Your task to perform on an android device: Search for the Best selling coffee table on Ikea Image 0: 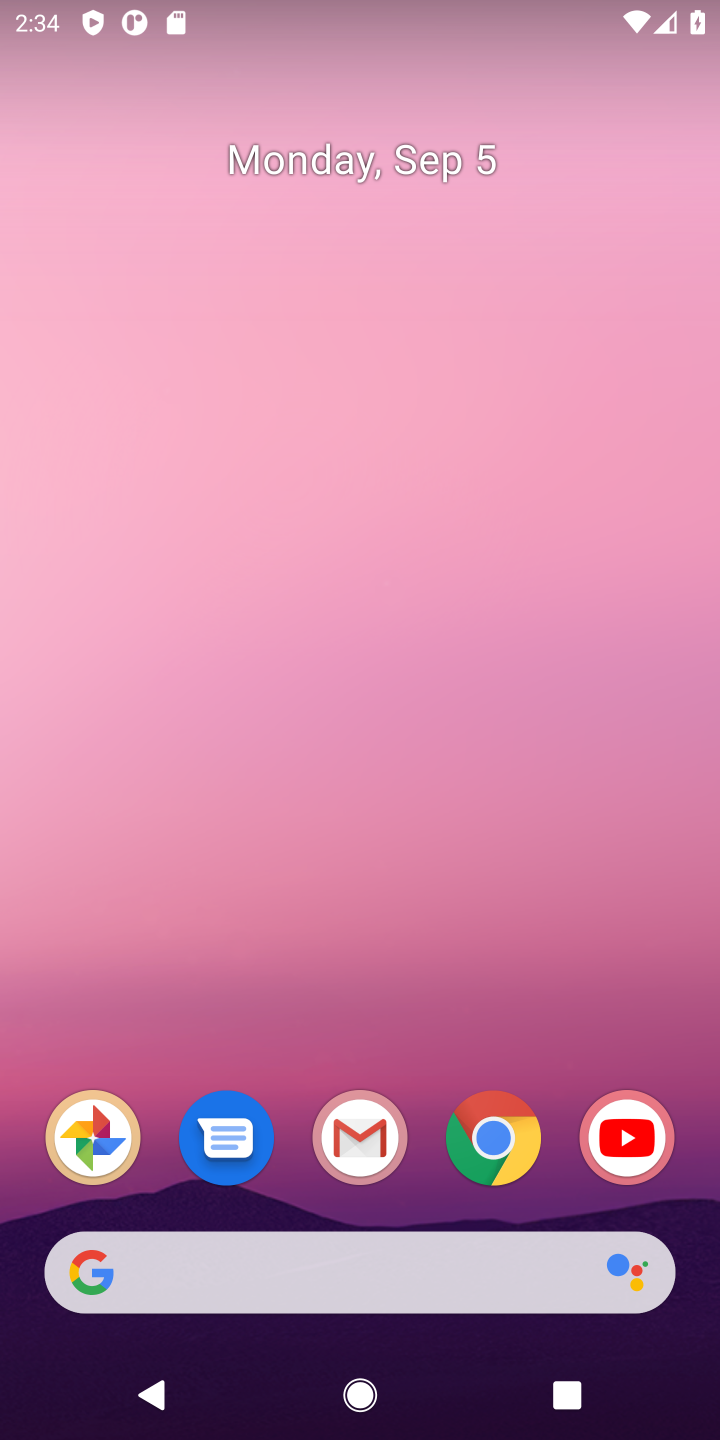
Step 0: click (498, 1135)
Your task to perform on an android device: Search for the Best selling coffee table on Ikea Image 1: 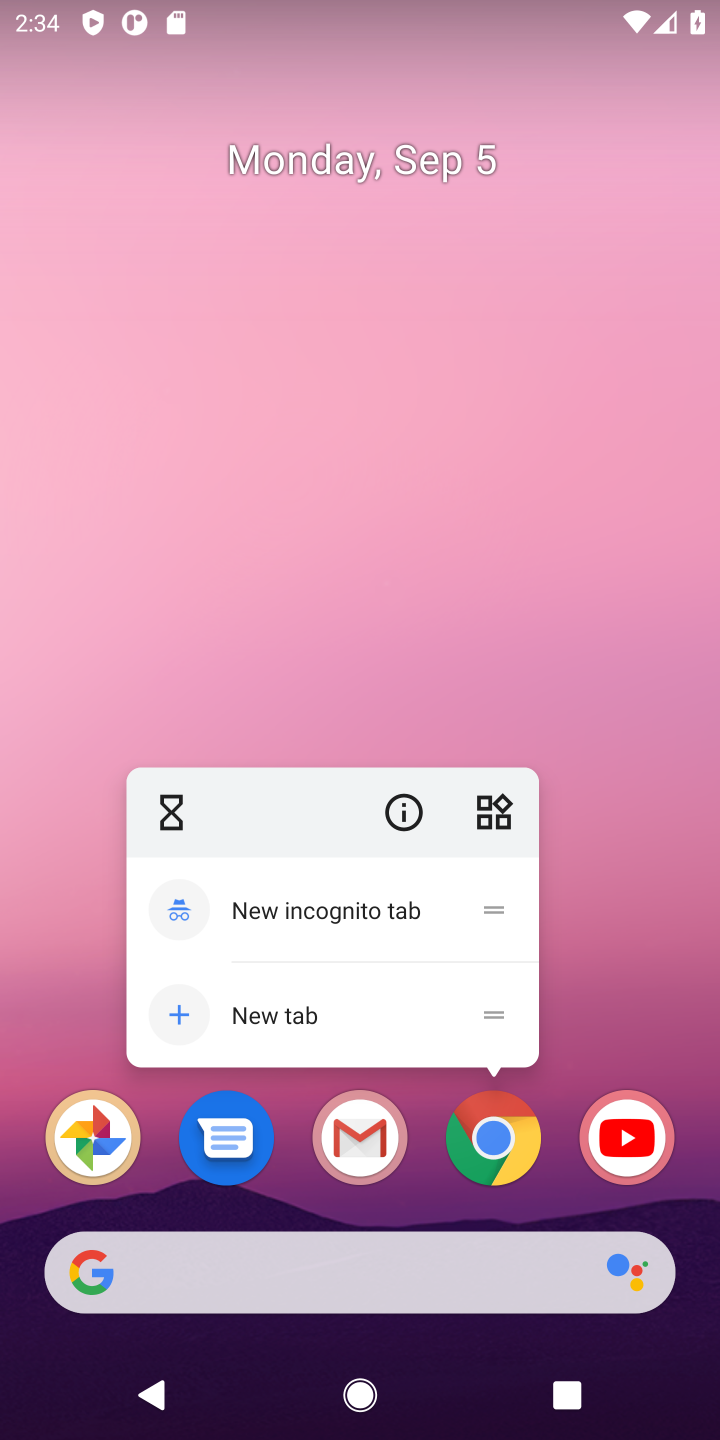
Step 1: click (480, 1145)
Your task to perform on an android device: Search for the Best selling coffee table on Ikea Image 2: 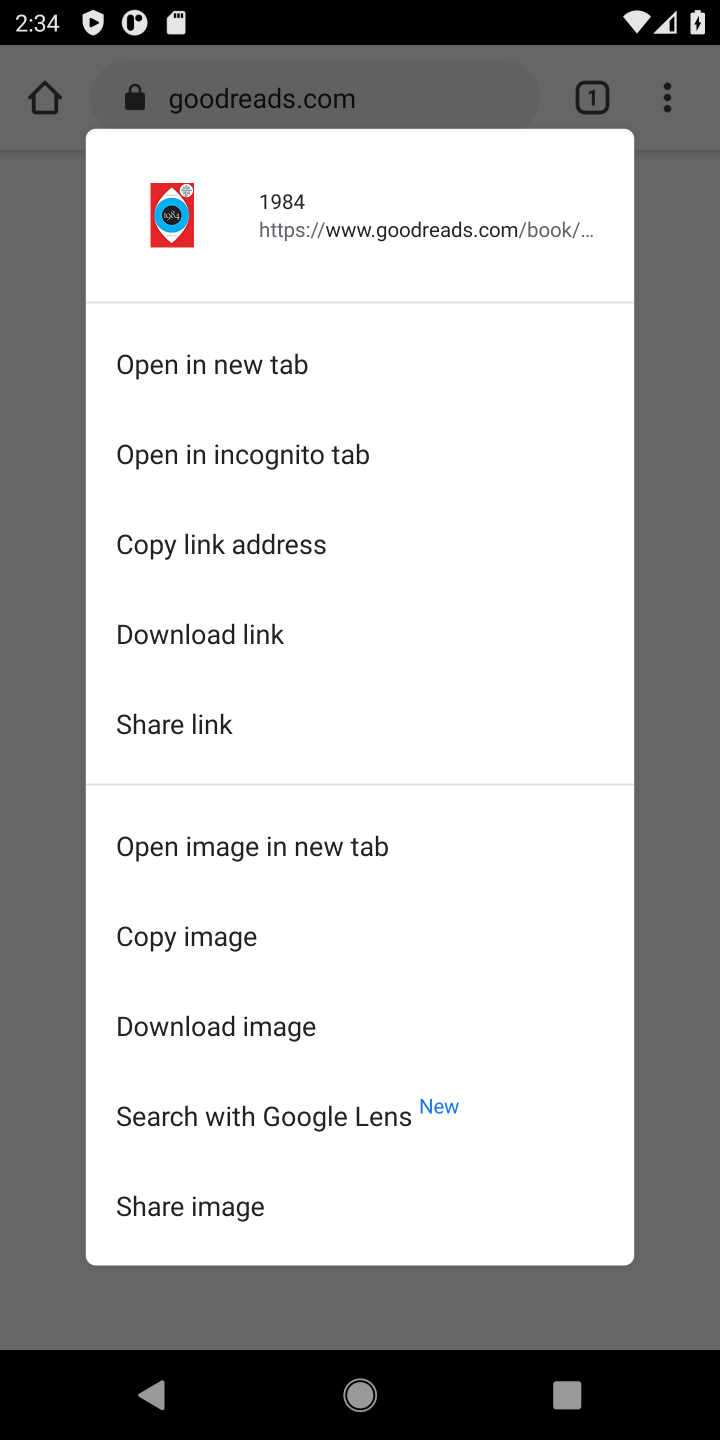
Step 2: click (658, 428)
Your task to perform on an android device: Search for the Best selling coffee table on Ikea Image 3: 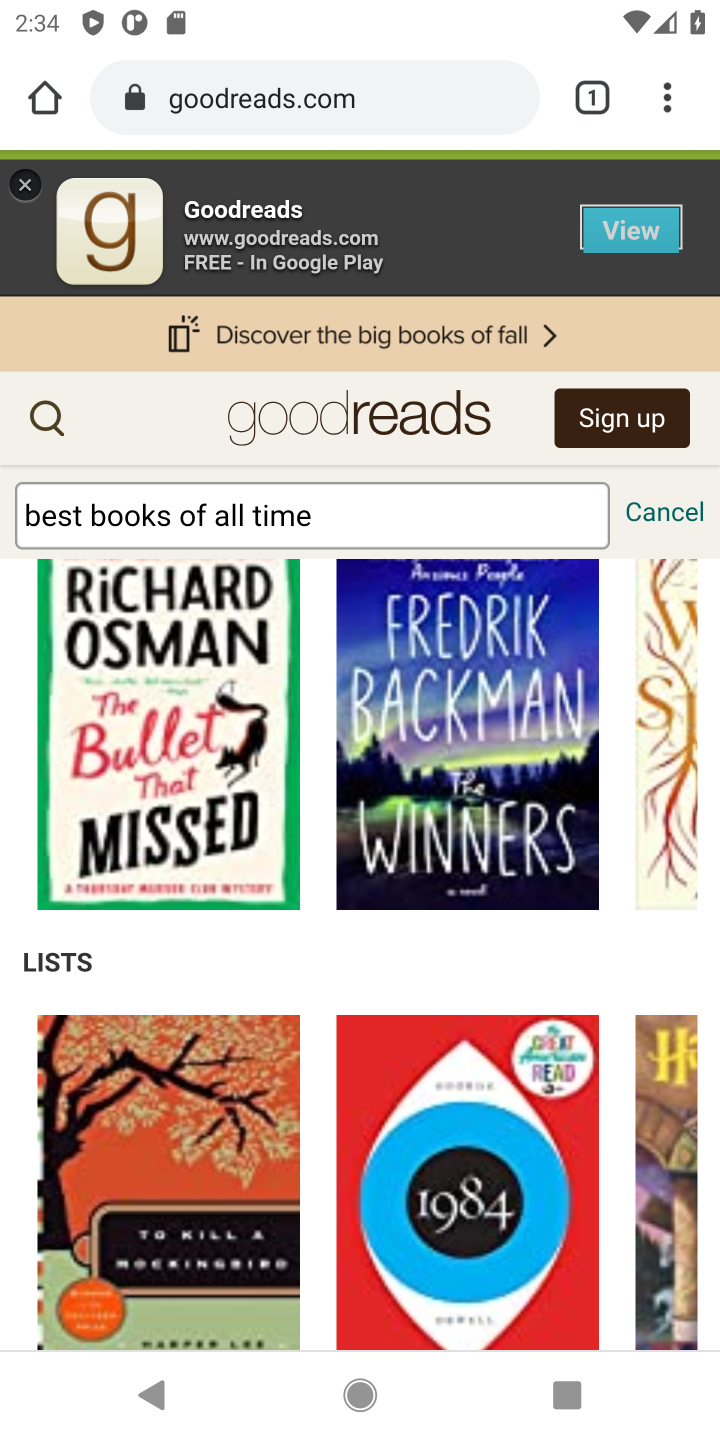
Step 3: click (294, 111)
Your task to perform on an android device: Search for the Best selling coffee table on Ikea Image 4: 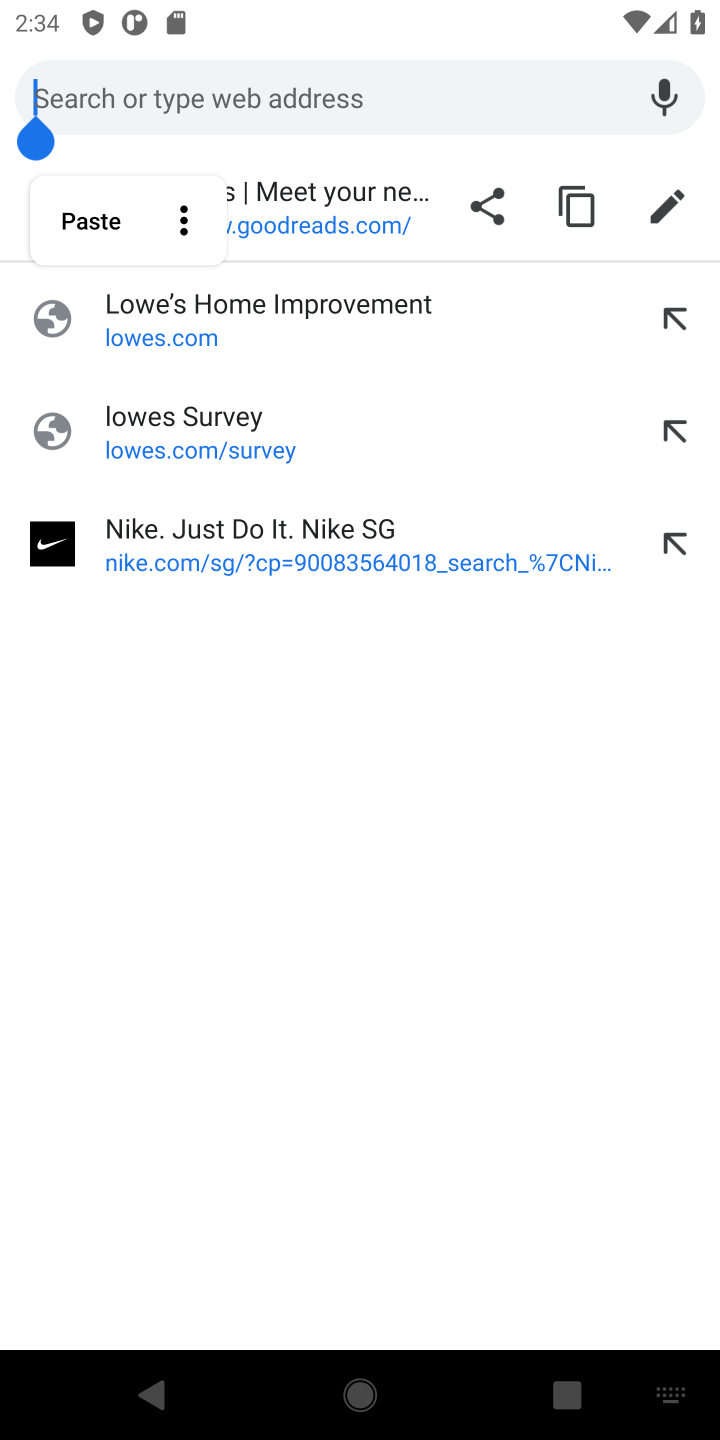
Step 4: type "ikea"
Your task to perform on an android device: Search for the Best selling coffee table on Ikea Image 5: 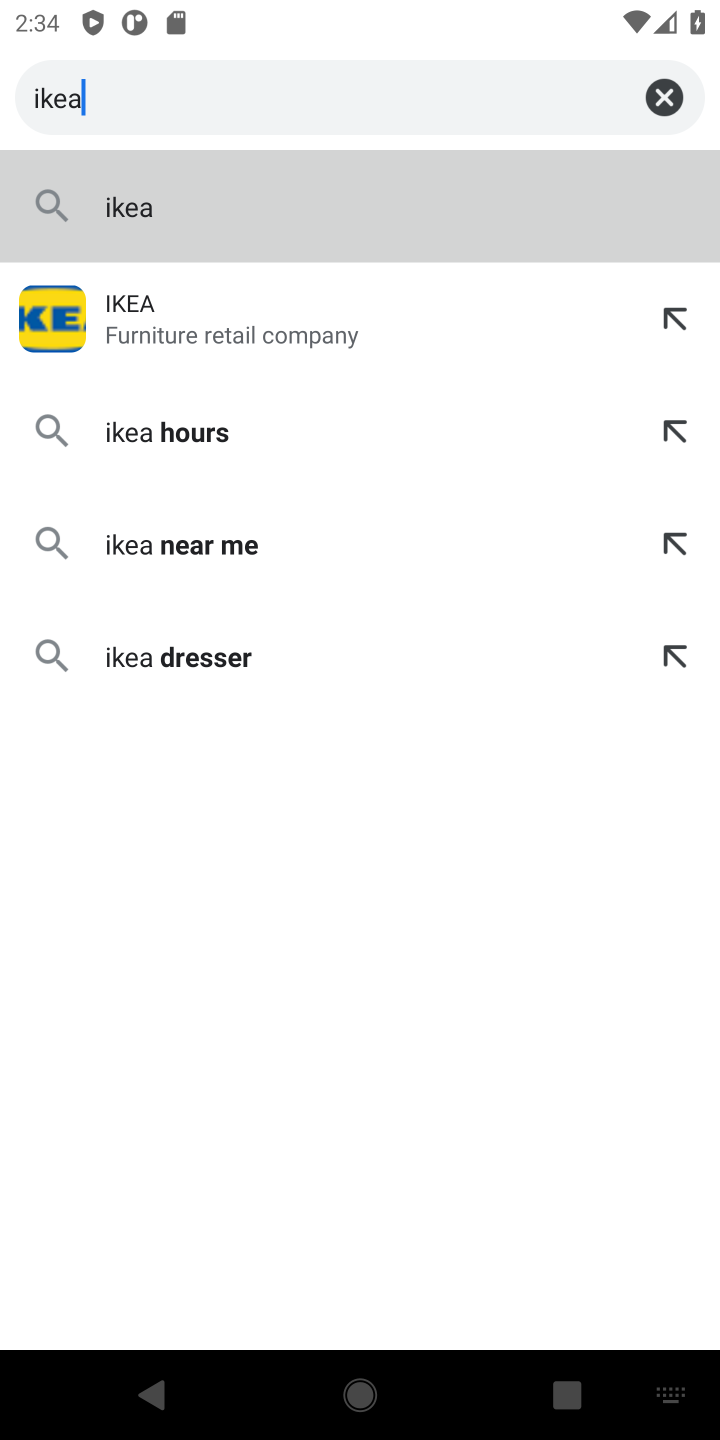
Step 5: click (227, 326)
Your task to perform on an android device: Search for the Best selling coffee table on Ikea Image 6: 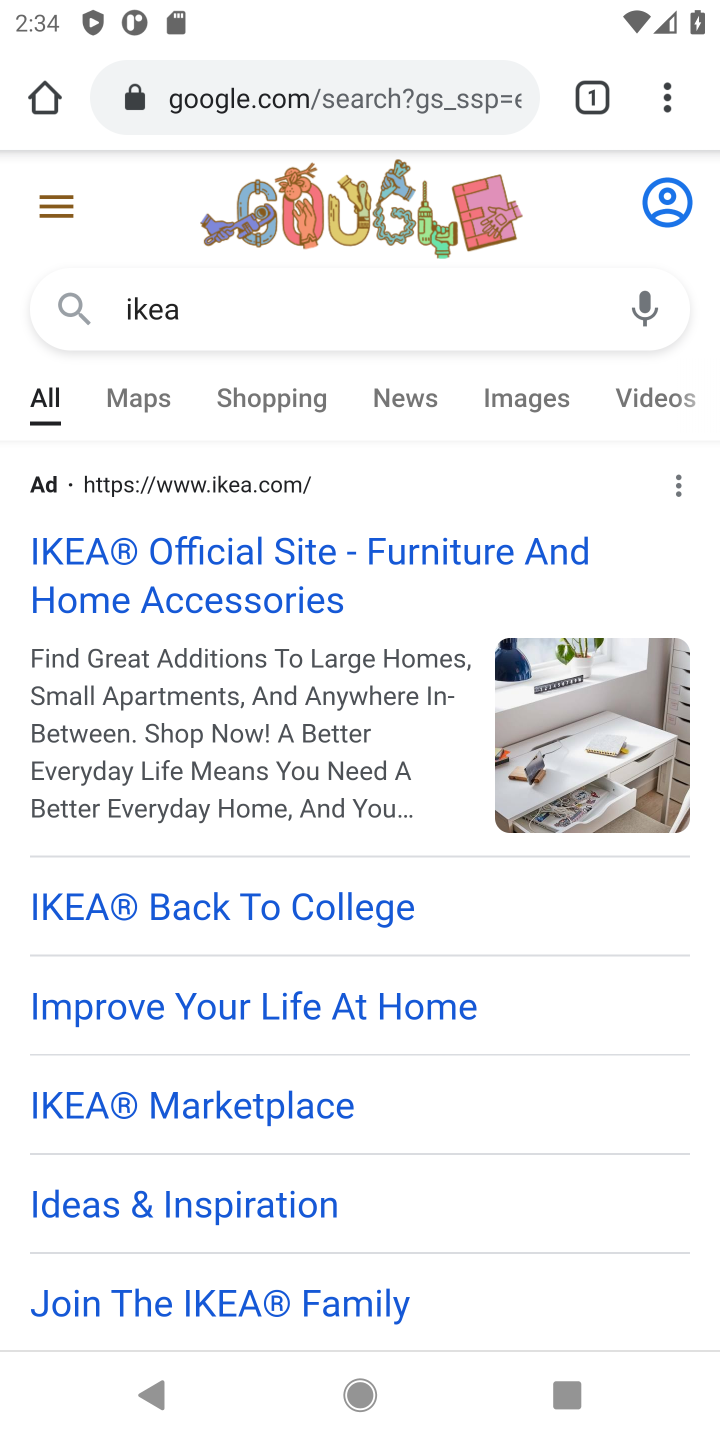
Step 6: drag from (623, 1123) to (557, 359)
Your task to perform on an android device: Search for the Best selling coffee table on Ikea Image 7: 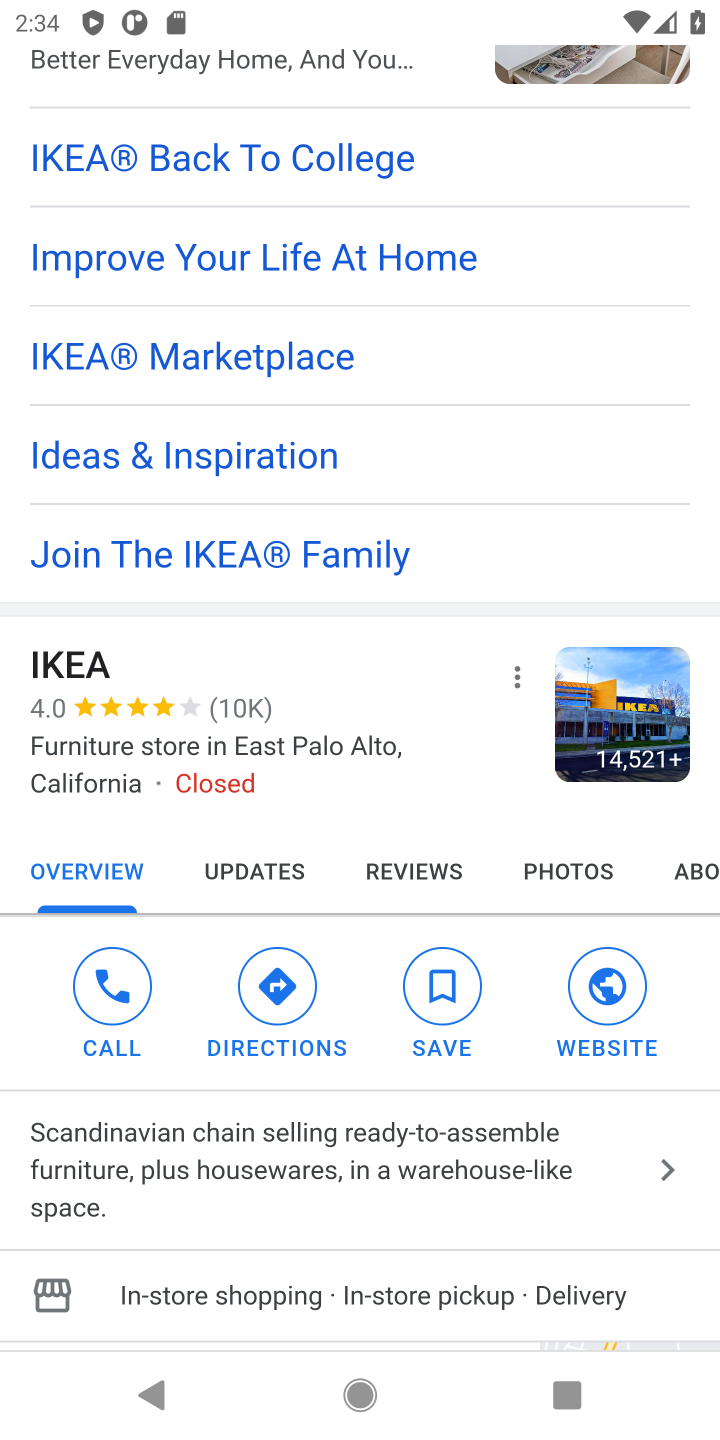
Step 7: drag from (672, 1004) to (644, 393)
Your task to perform on an android device: Search for the Best selling coffee table on Ikea Image 8: 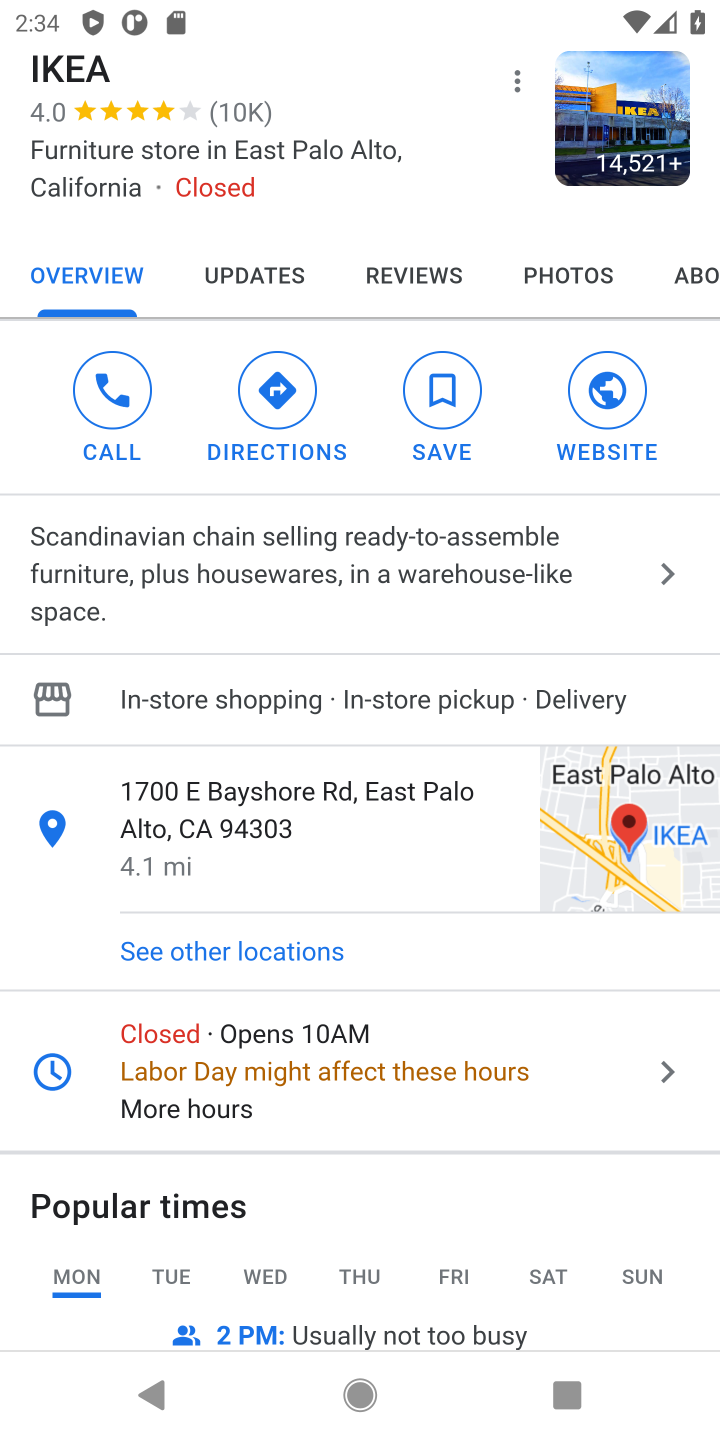
Step 8: drag from (236, 1017) to (171, 342)
Your task to perform on an android device: Search for the Best selling coffee table on Ikea Image 9: 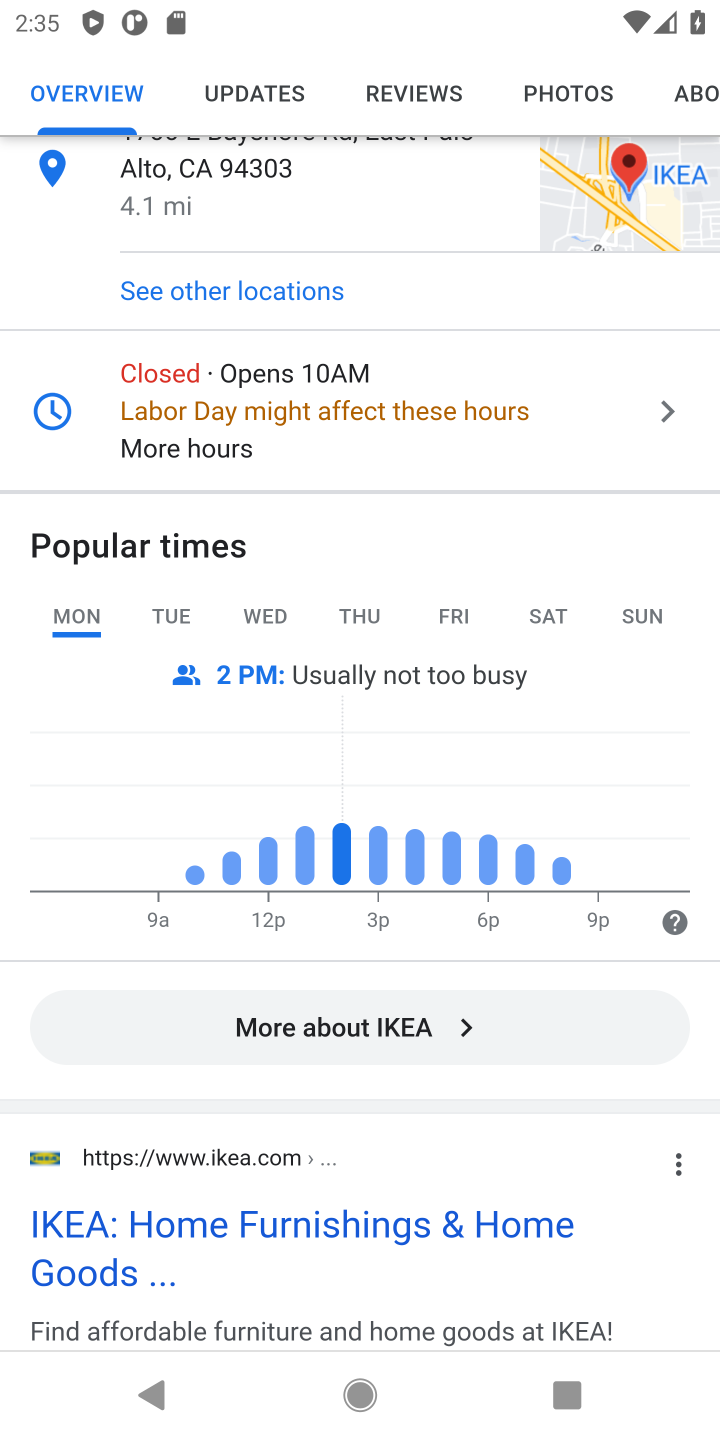
Step 9: click (183, 1226)
Your task to perform on an android device: Search for the Best selling coffee table on Ikea Image 10: 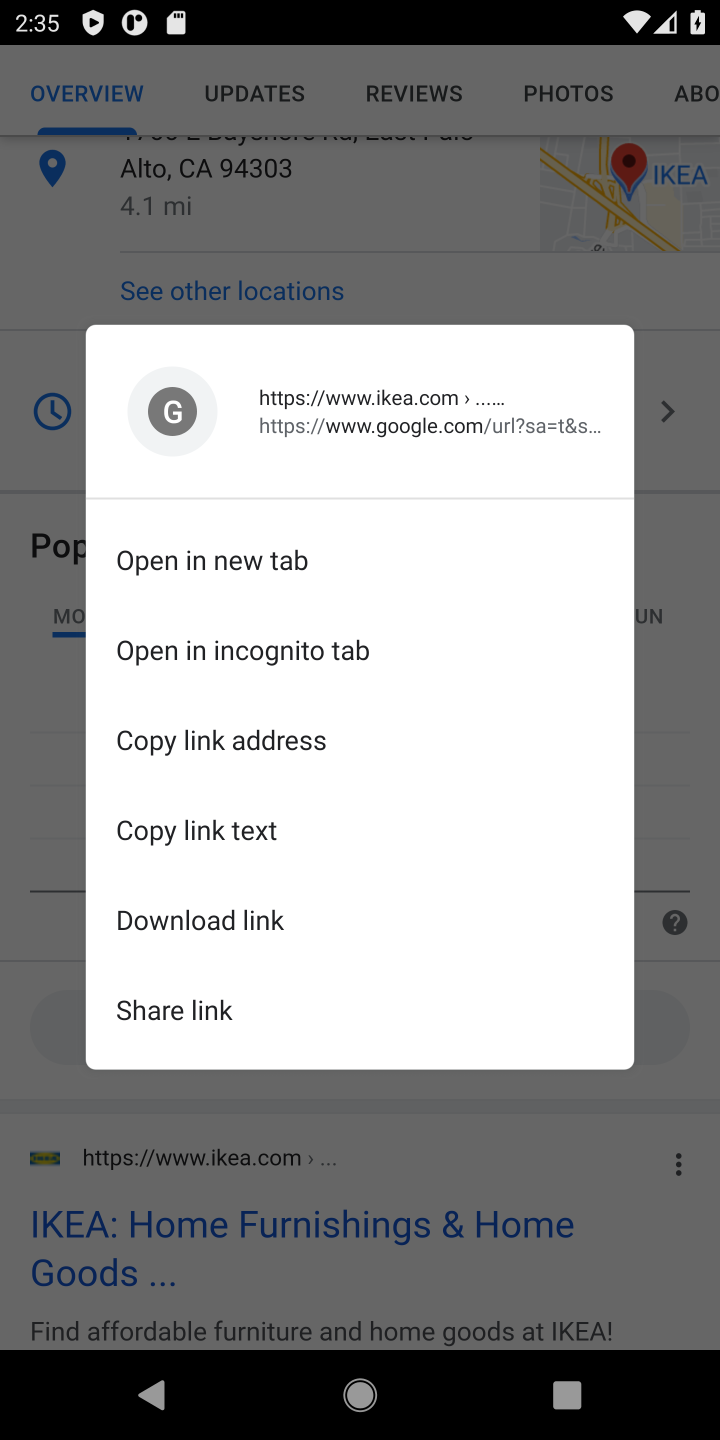
Step 10: click (687, 752)
Your task to perform on an android device: Search for the Best selling coffee table on Ikea Image 11: 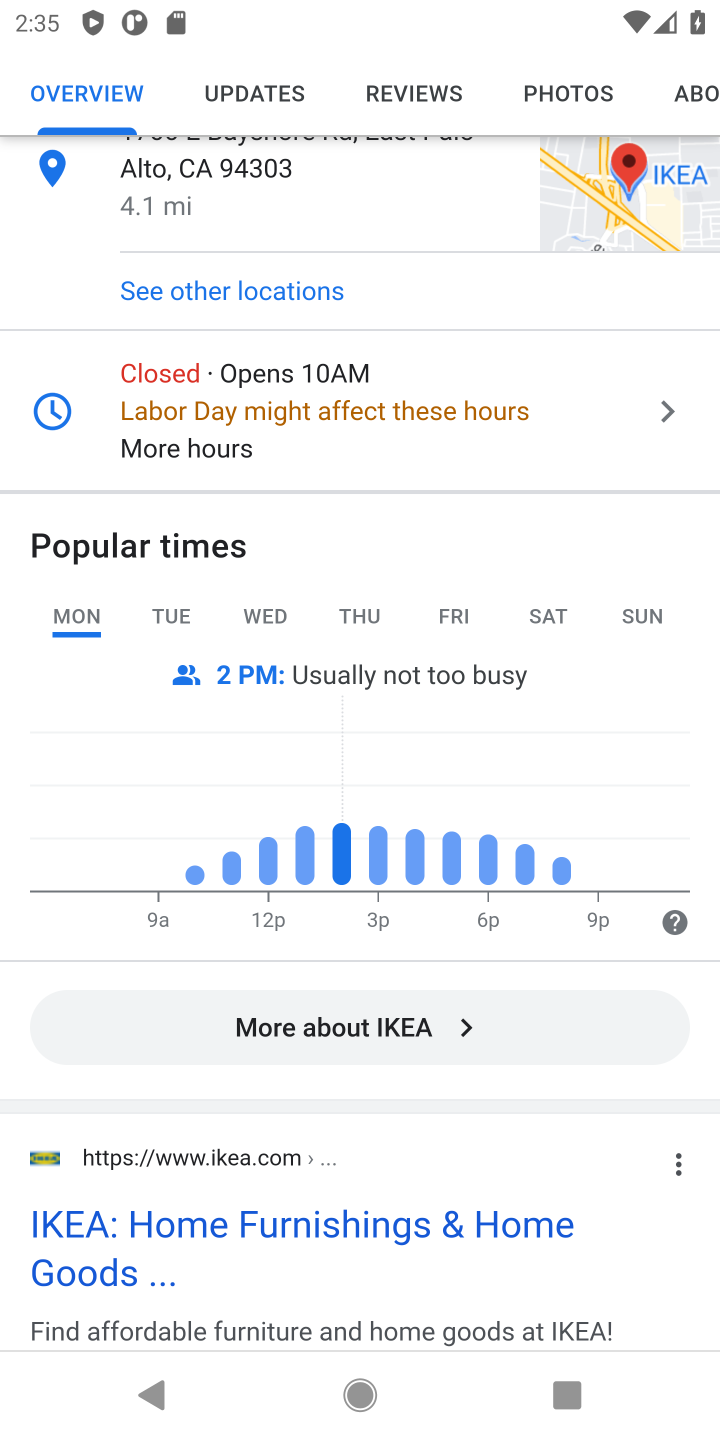
Step 11: click (185, 1227)
Your task to perform on an android device: Search for the Best selling coffee table on Ikea Image 12: 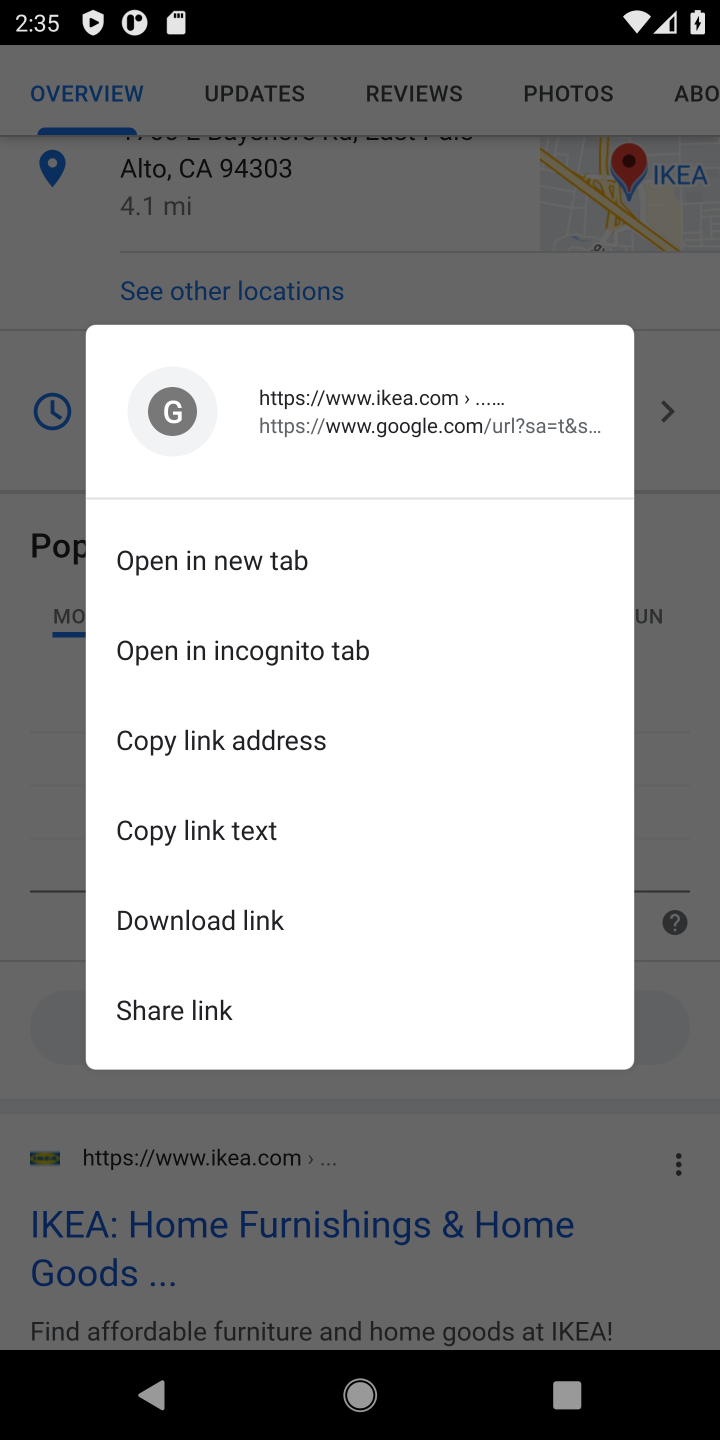
Step 12: click (682, 671)
Your task to perform on an android device: Search for the Best selling coffee table on Ikea Image 13: 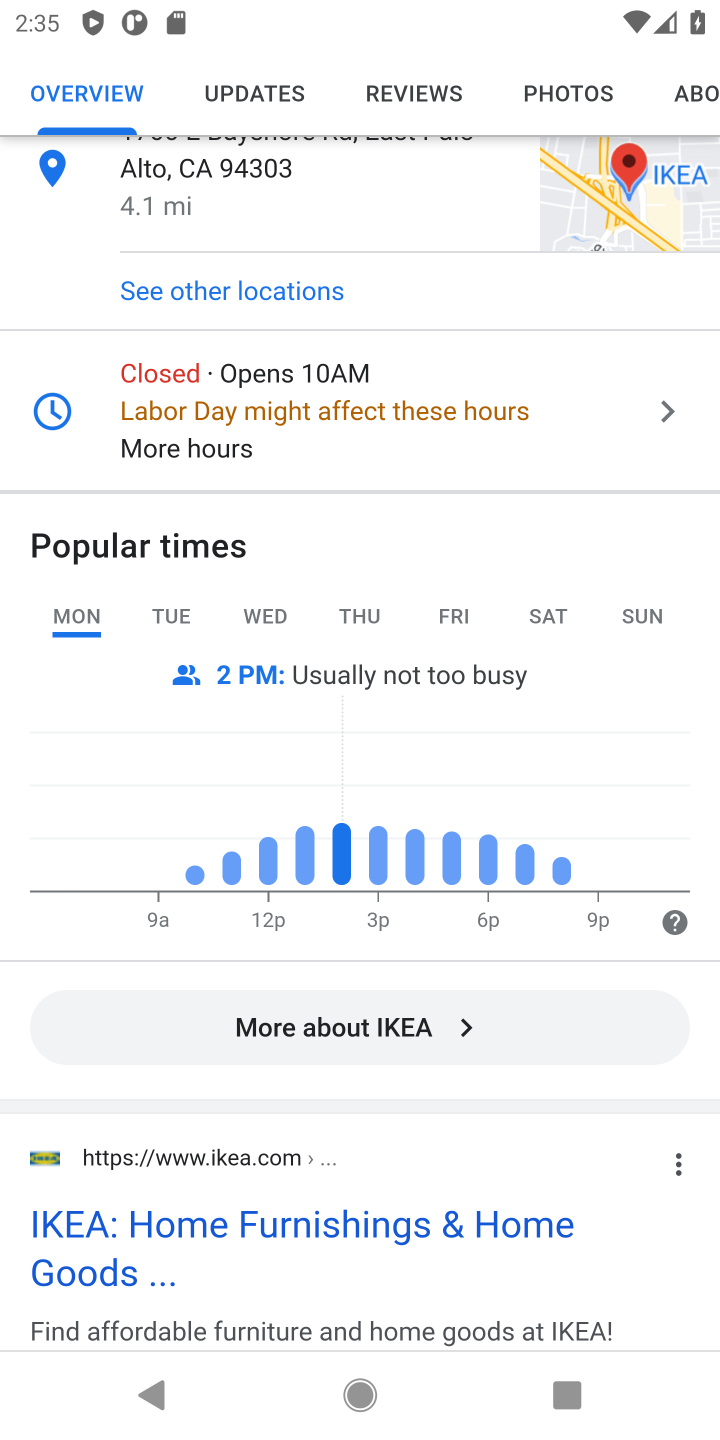
Step 13: click (206, 1220)
Your task to perform on an android device: Search for the Best selling coffee table on Ikea Image 14: 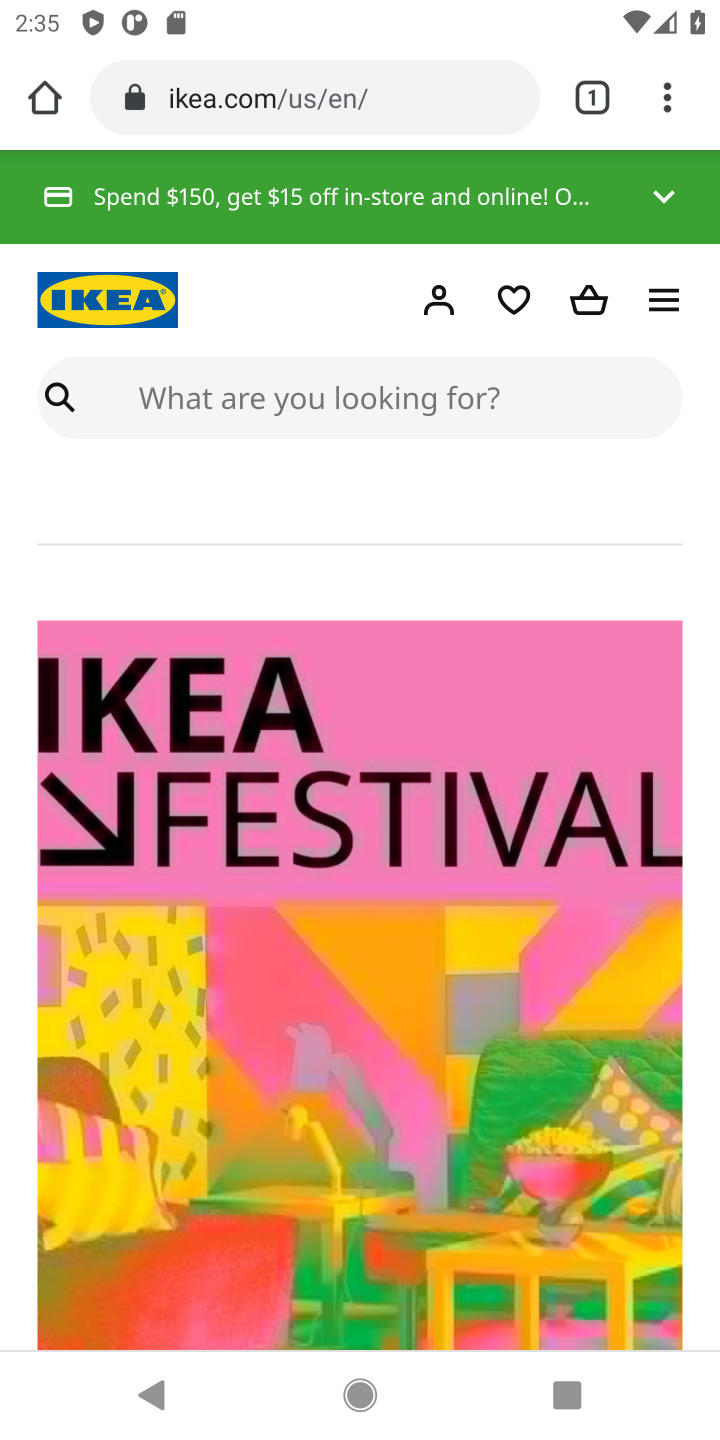
Step 14: click (278, 389)
Your task to perform on an android device: Search for the Best selling coffee table on Ikea Image 15: 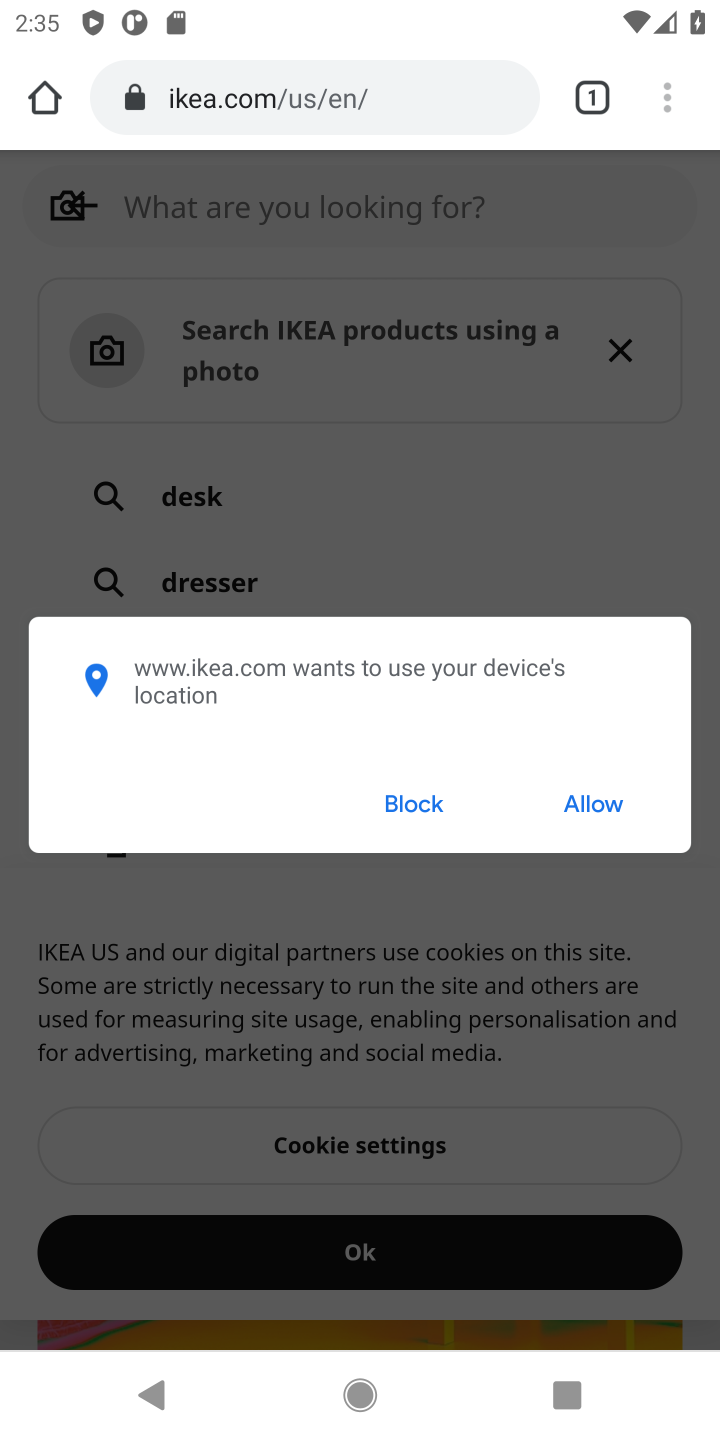
Step 15: type "coffee table"
Your task to perform on an android device: Search for the Best selling coffee table on Ikea Image 16: 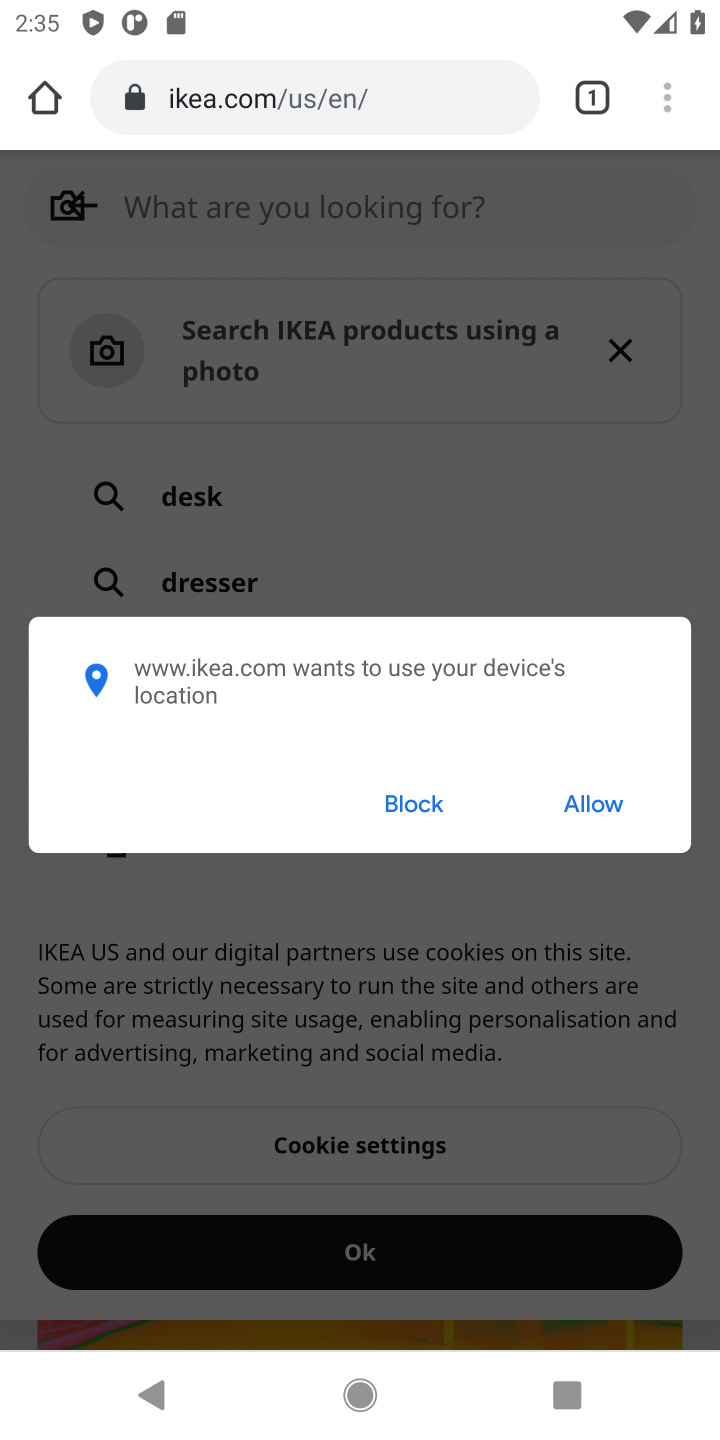
Step 16: type ""
Your task to perform on an android device: Search for the Best selling coffee table on Ikea Image 17: 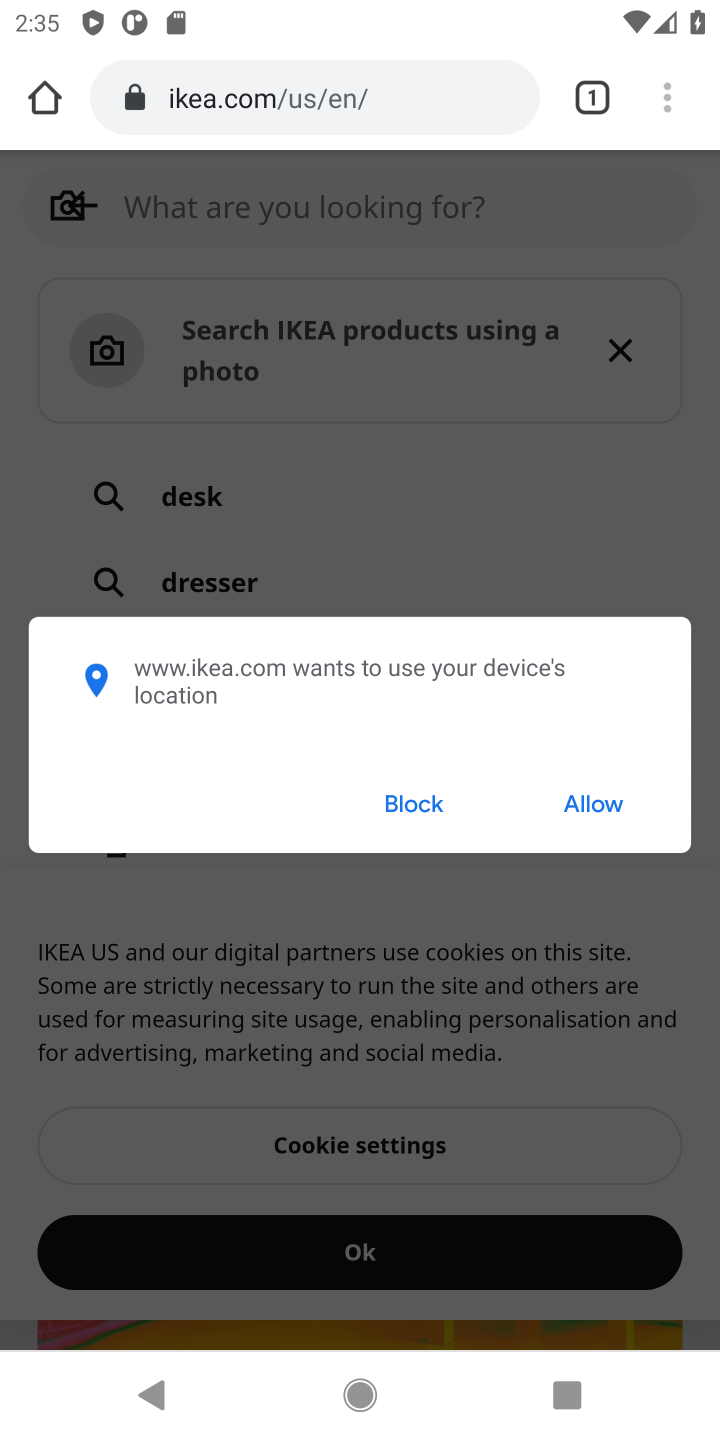
Step 17: click (591, 791)
Your task to perform on an android device: Search for the Best selling coffee table on Ikea Image 18: 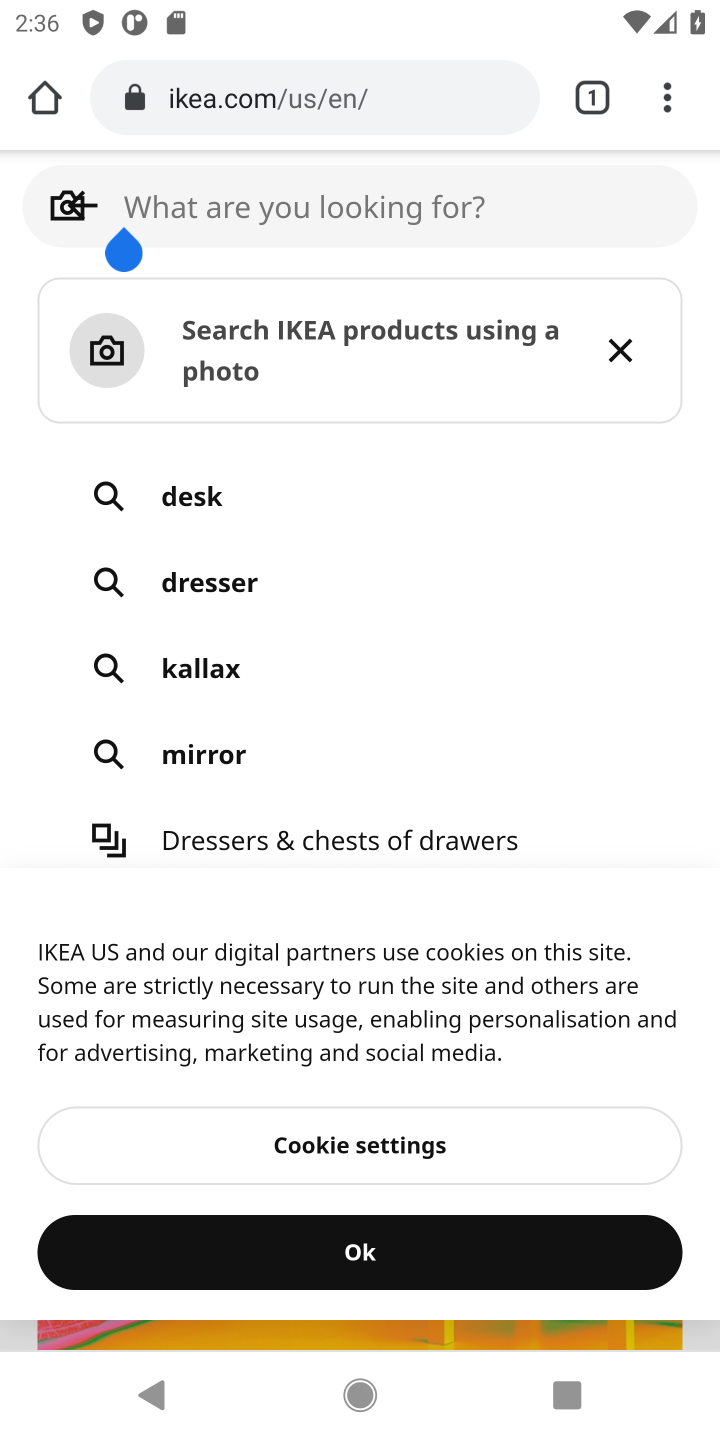
Step 18: click (258, 202)
Your task to perform on an android device: Search for the Best selling coffee table on Ikea Image 19: 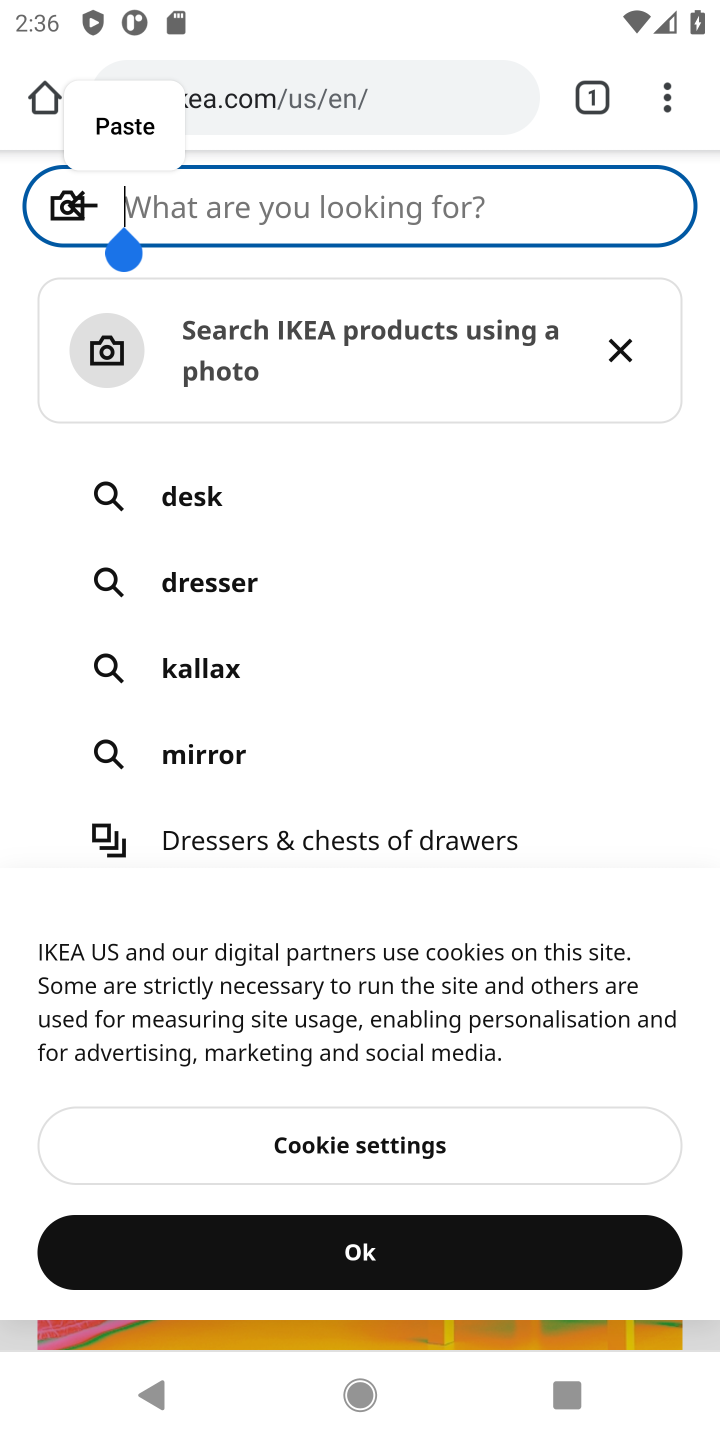
Step 19: click (615, 342)
Your task to perform on an android device: Search for the Best selling coffee table on Ikea Image 20: 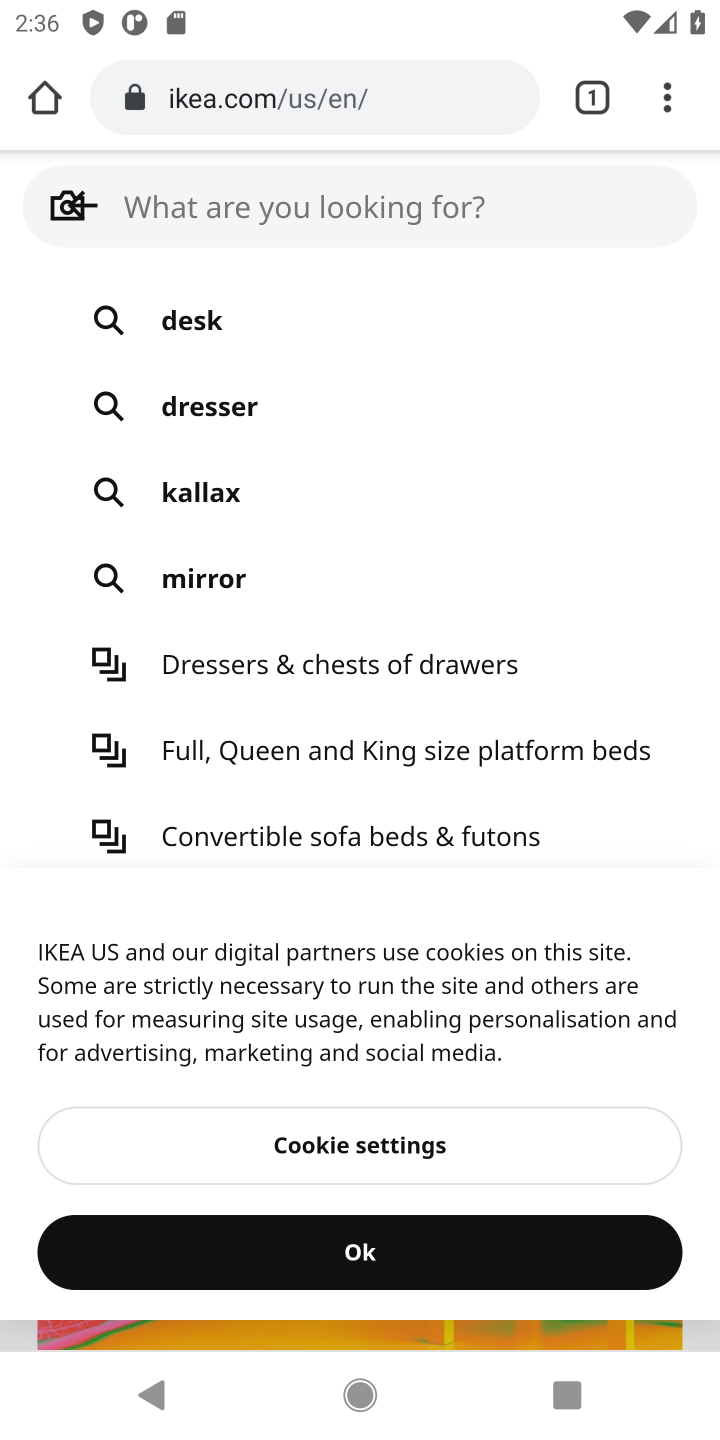
Step 20: click (242, 205)
Your task to perform on an android device: Search for the Best selling coffee table on Ikea Image 21: 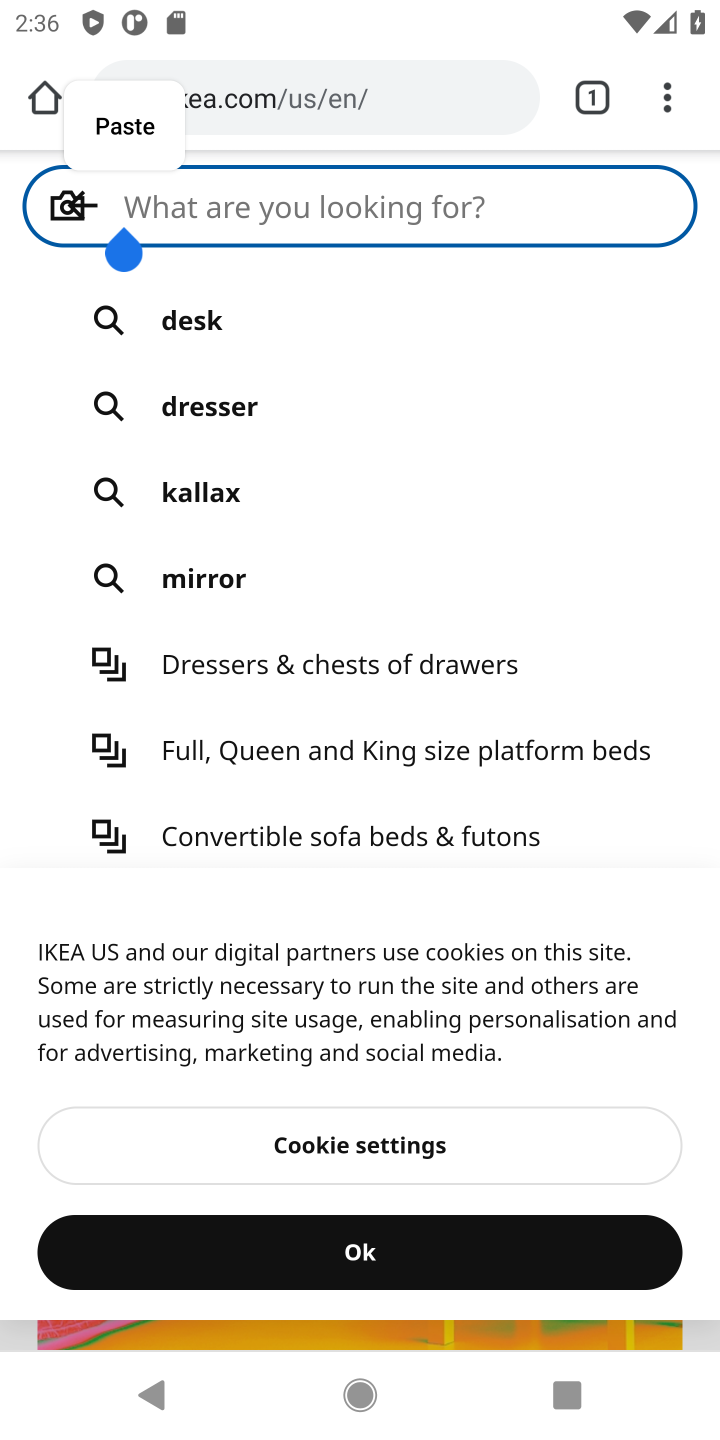
Step 21: type "coffee table"
Your task to perform on an android device: Search for the Best selling coffee table on Ikea Image 22: 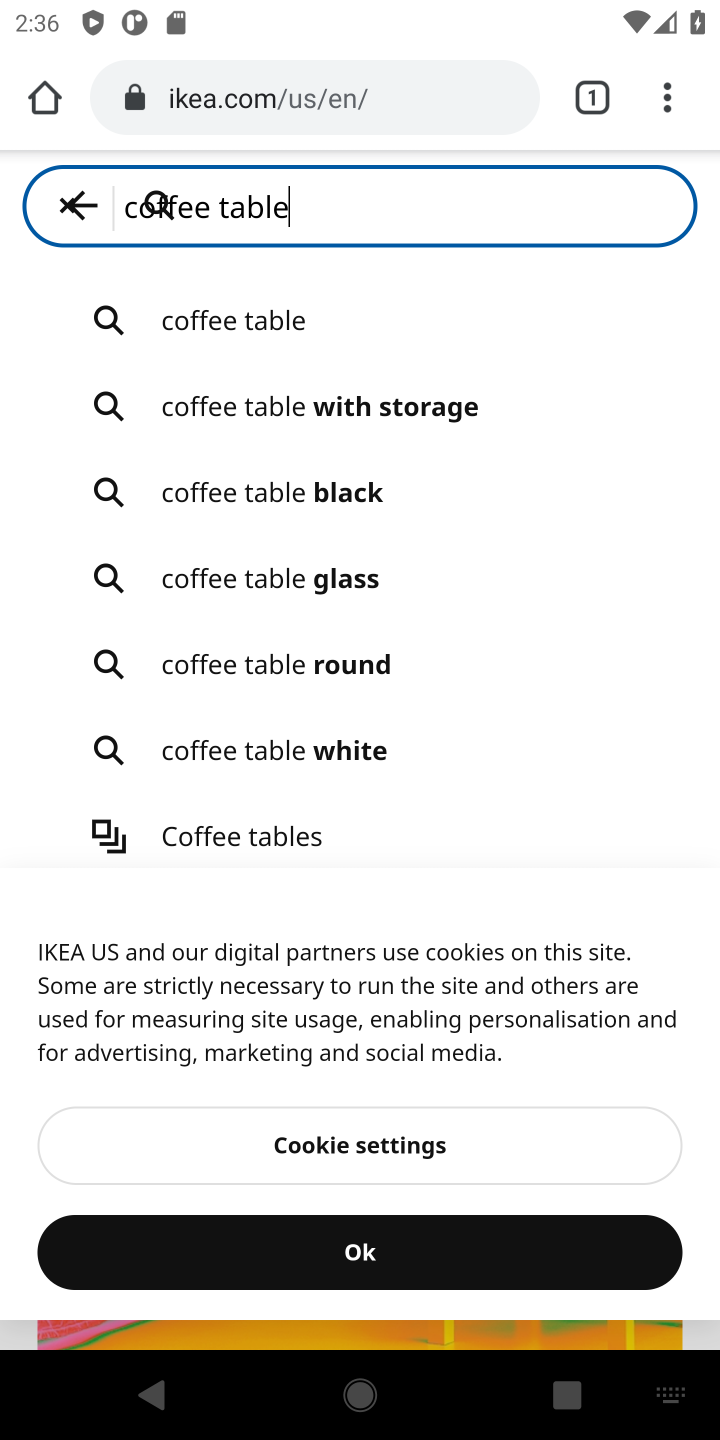
Step 22: click (240, 325)
Your task to perform on an android device: Search for the Best selling coffee table on Ikea Image 23: 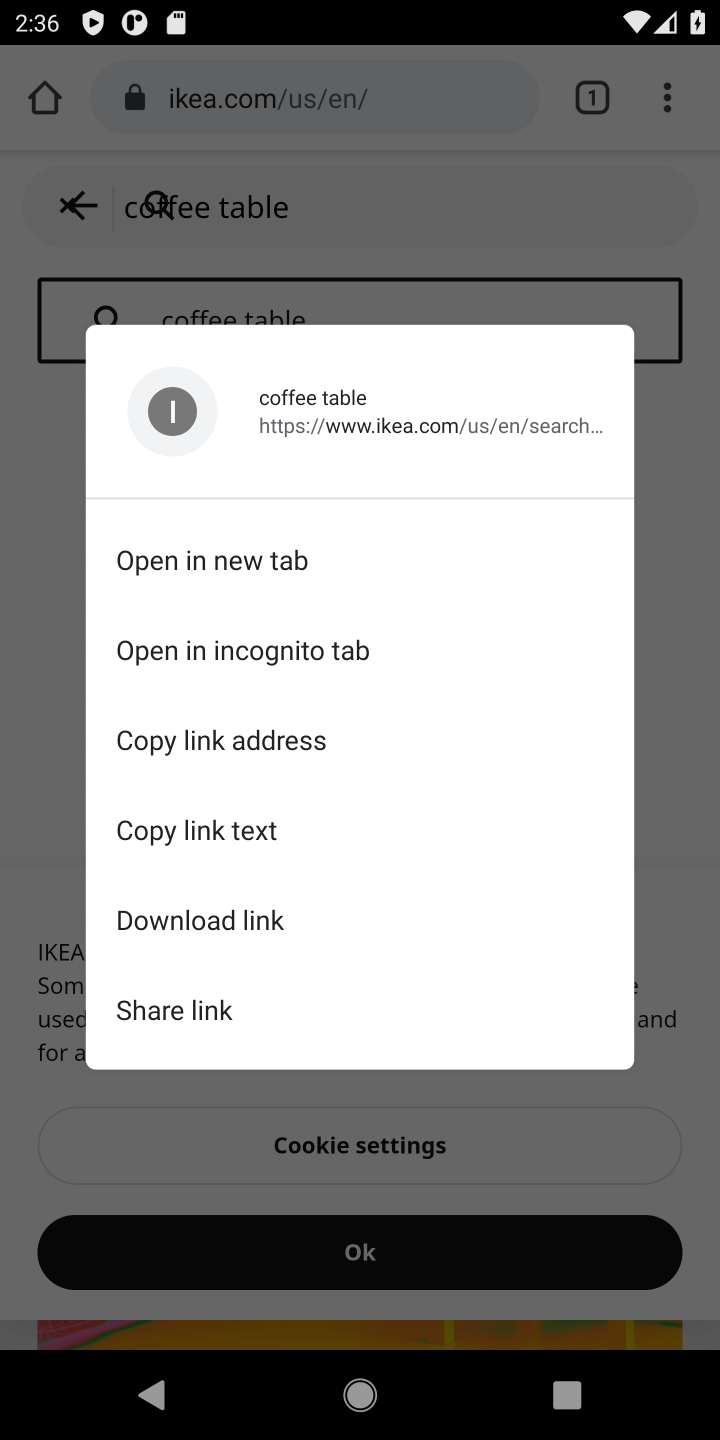
Step 23: click (715, 610)
Your task to perform on an android device: Search for the Best selling coffee table on Ikea Image 24: 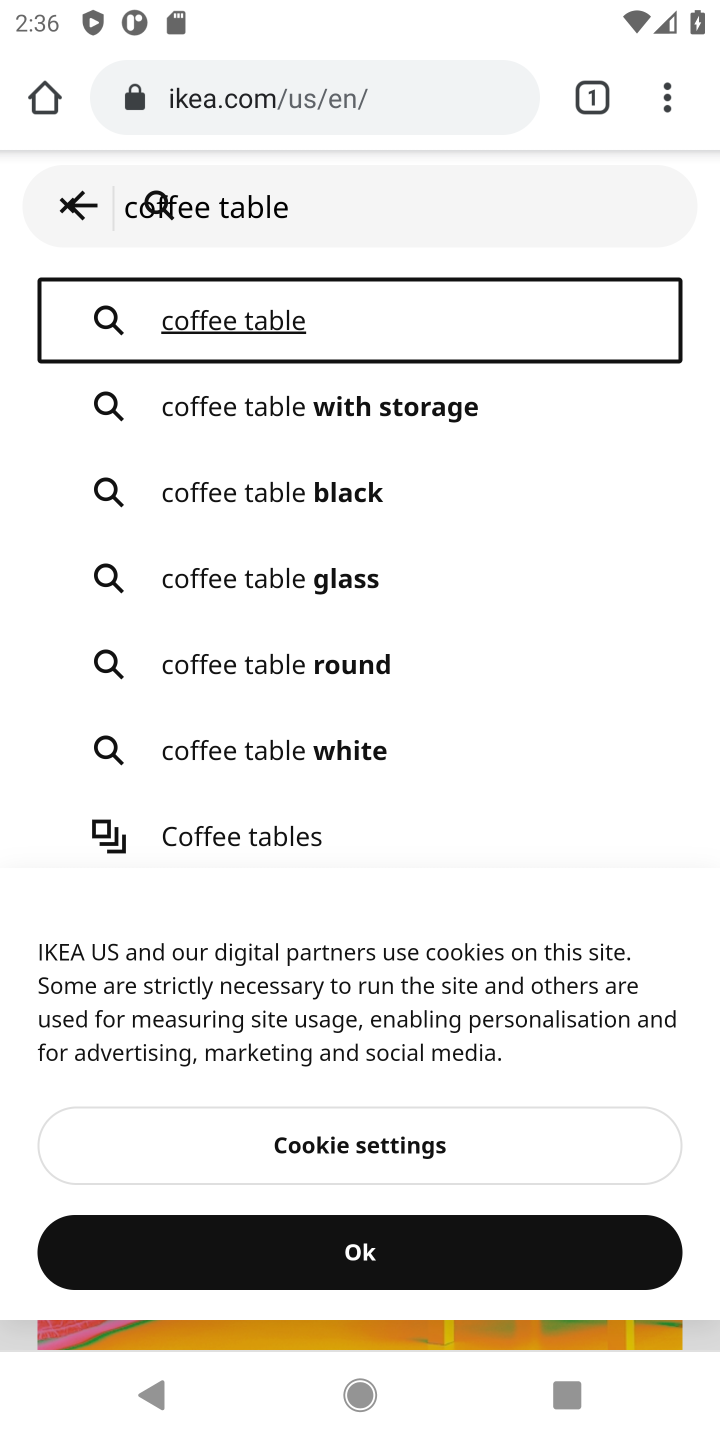
Step 24: click (151, 400)
Your task to perform on an android device: Search for the Best selling coffee table on Ikea Image 25: 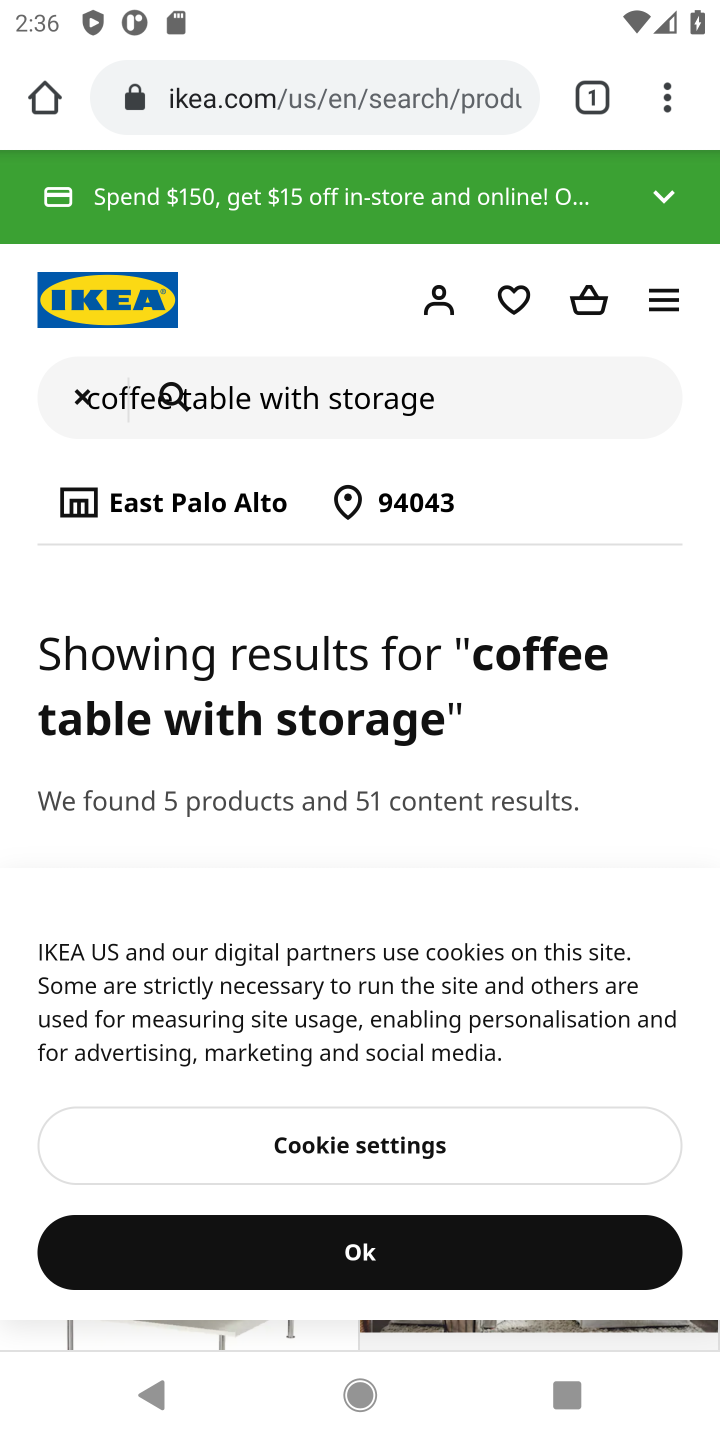
Step 25: drag from (248, 1074) to (575, 514)
Your task to perform on an android device: Search for the Best selling coffee table on Ikea Image 26: 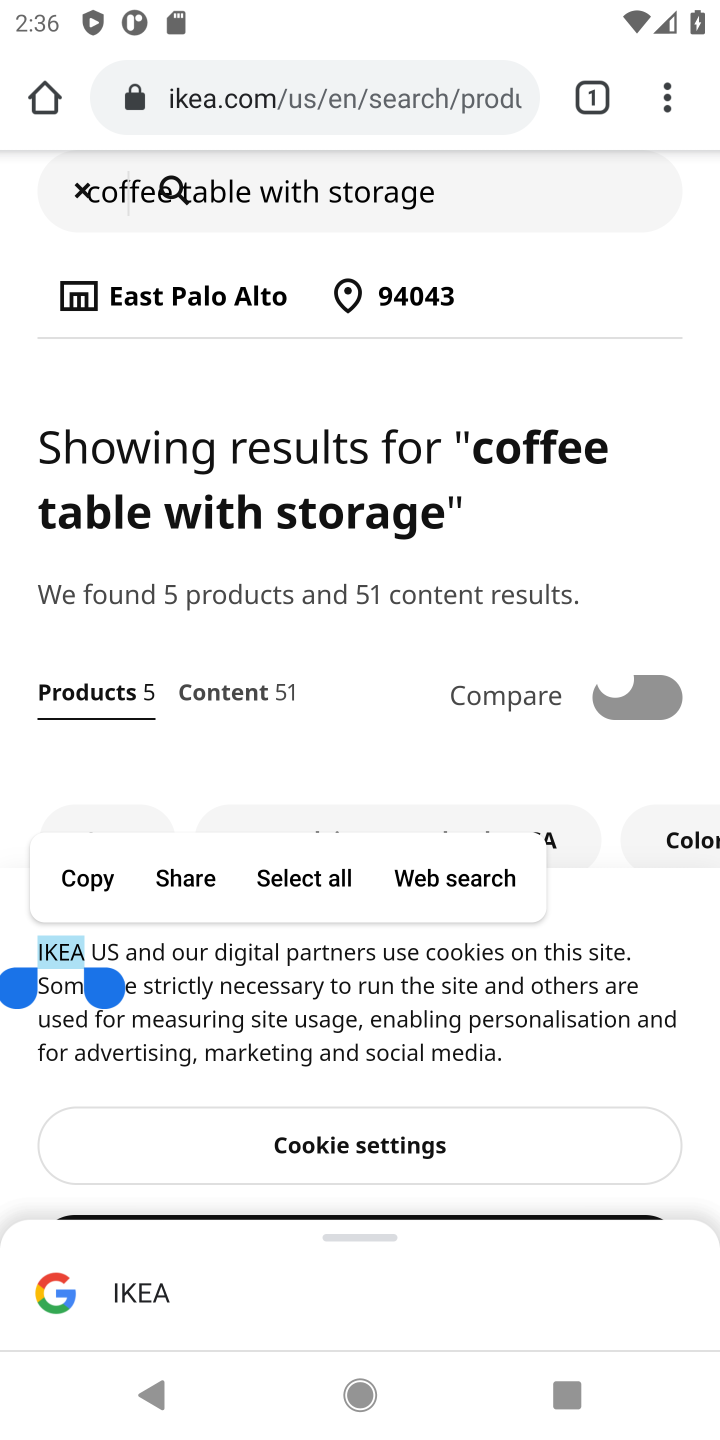
Step 26: drag from (634, 761) to (594, 501)
Your task to perform on an android device: Search for the Best selling coffee table on Ikea Image 27: 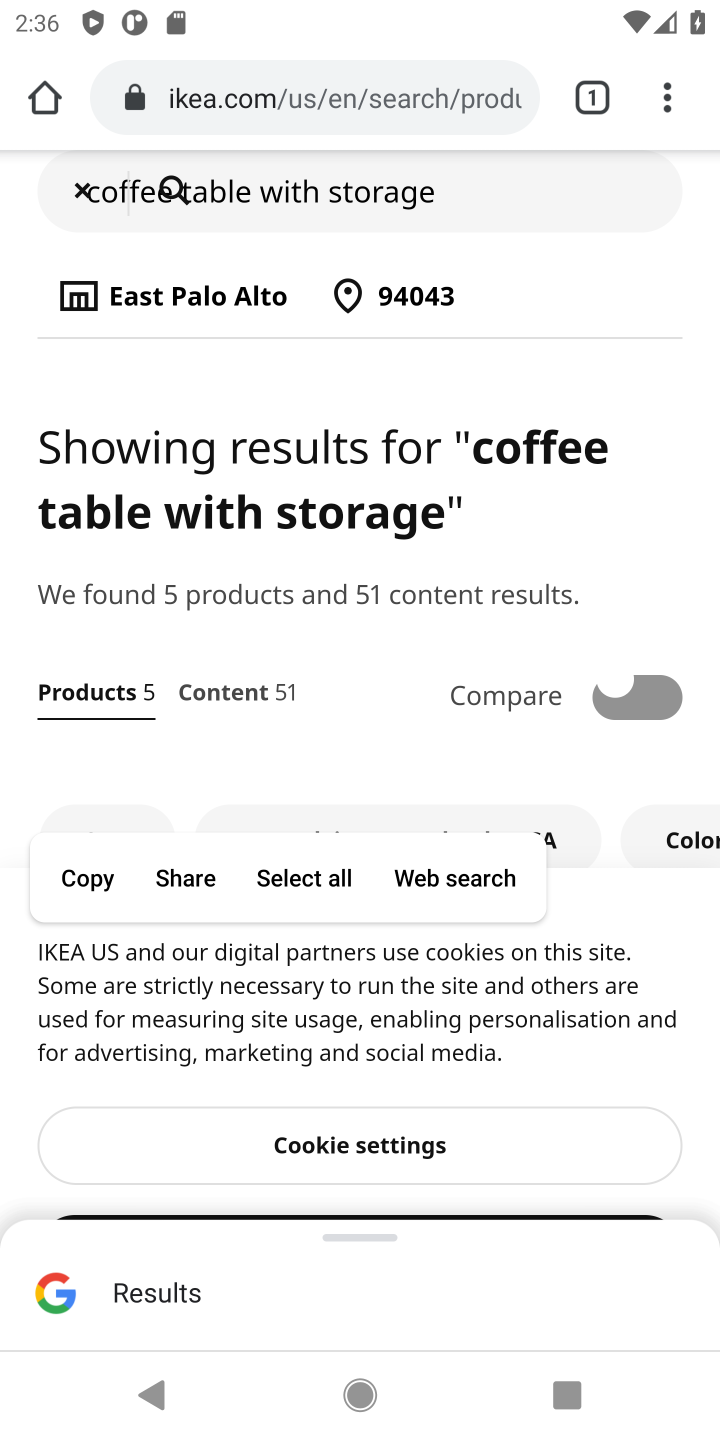
Step 27: drag from (639, 1000) to (524, 339)
Your task to perform on an android device: Search for the Best selling coffee table on Ikea Image 28: 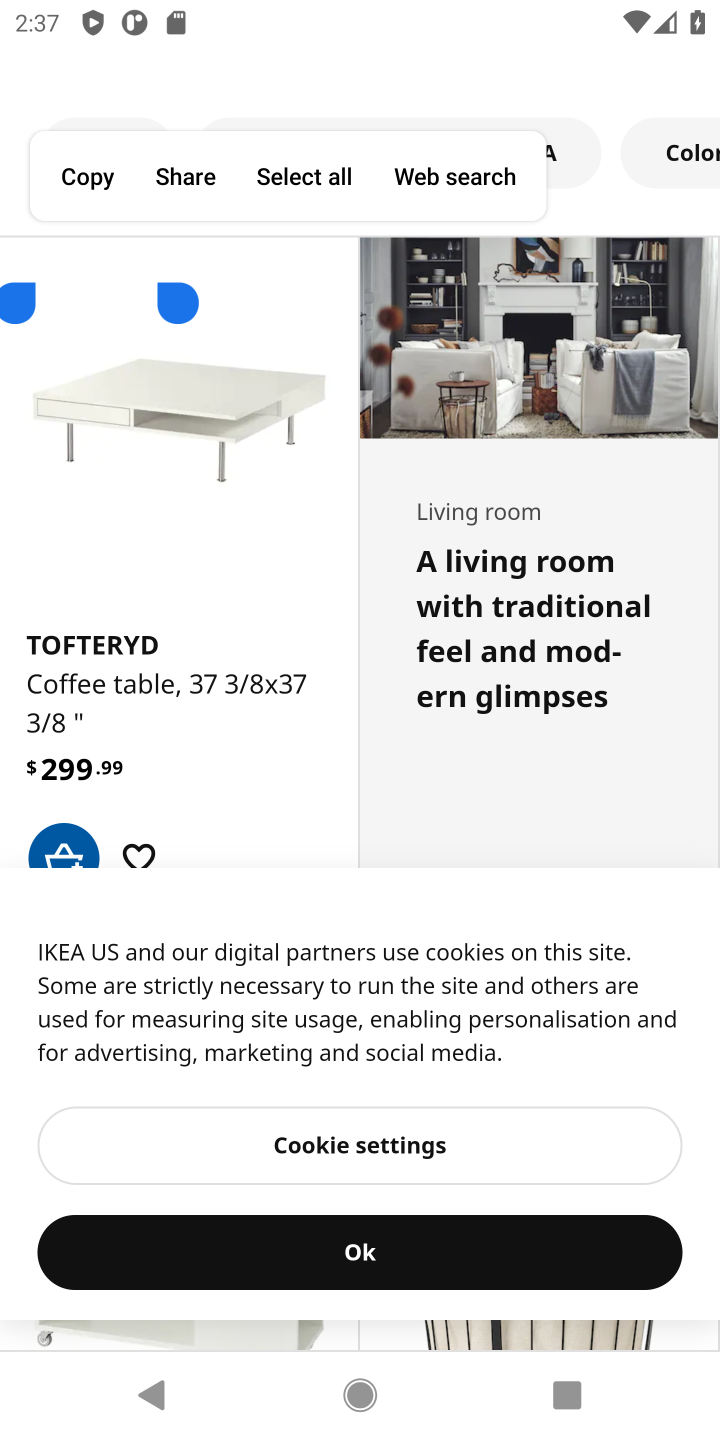
Step 28: drag from (293, 850) to (329, 250)
Your task to perform on an android device: Search for the Best selling coffee table on Ikea Image 29: 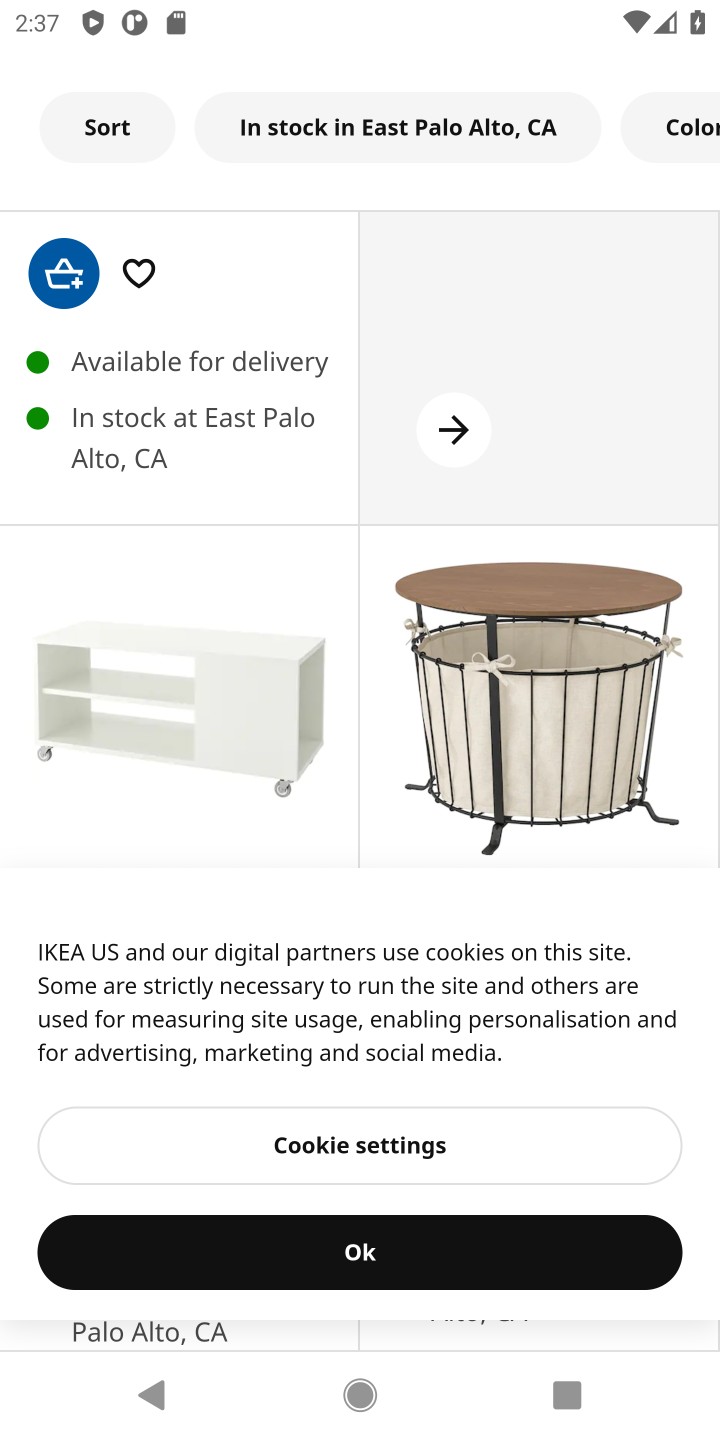
Step 29: drag from (467, 798) to (498, 412)
Your task to perform on an android device: Search for the Best selling coffee table on Ikea Image 30: 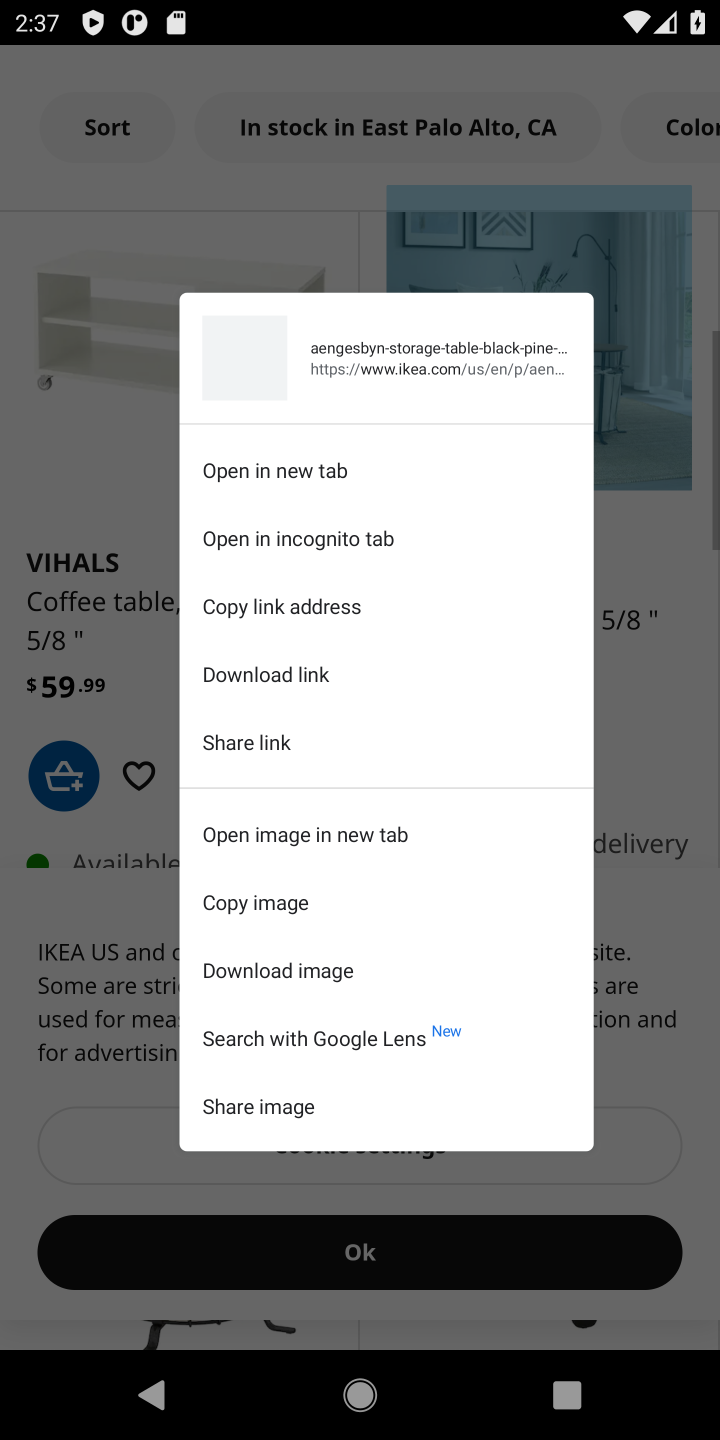
Step 30: drag from (452, 824) to (518, 334)
Your task to perform on an android device: Search for the Best selling coffee table on Ikea Image 31: 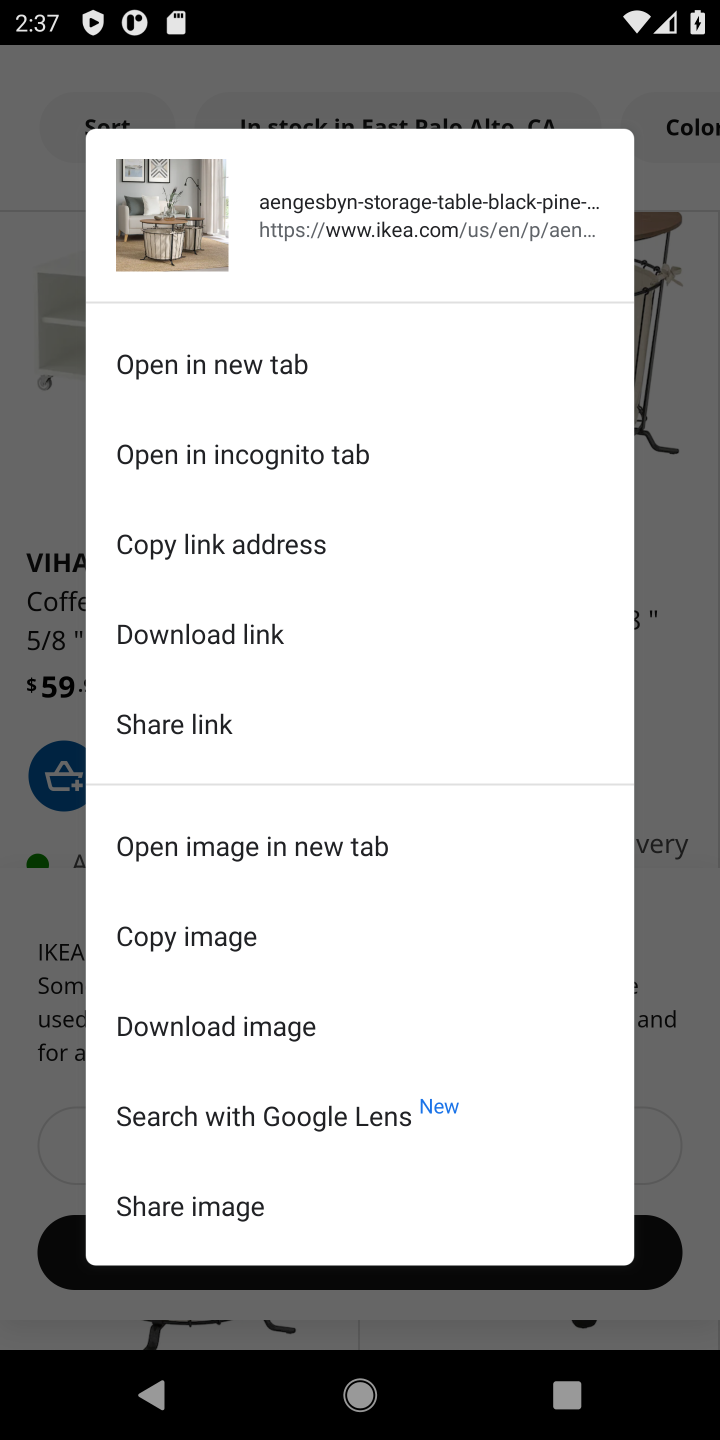
Step 31: click (694, 543)
Your task to perform on an android device: Search for the Best selling coffee table on Ikea Image 32: 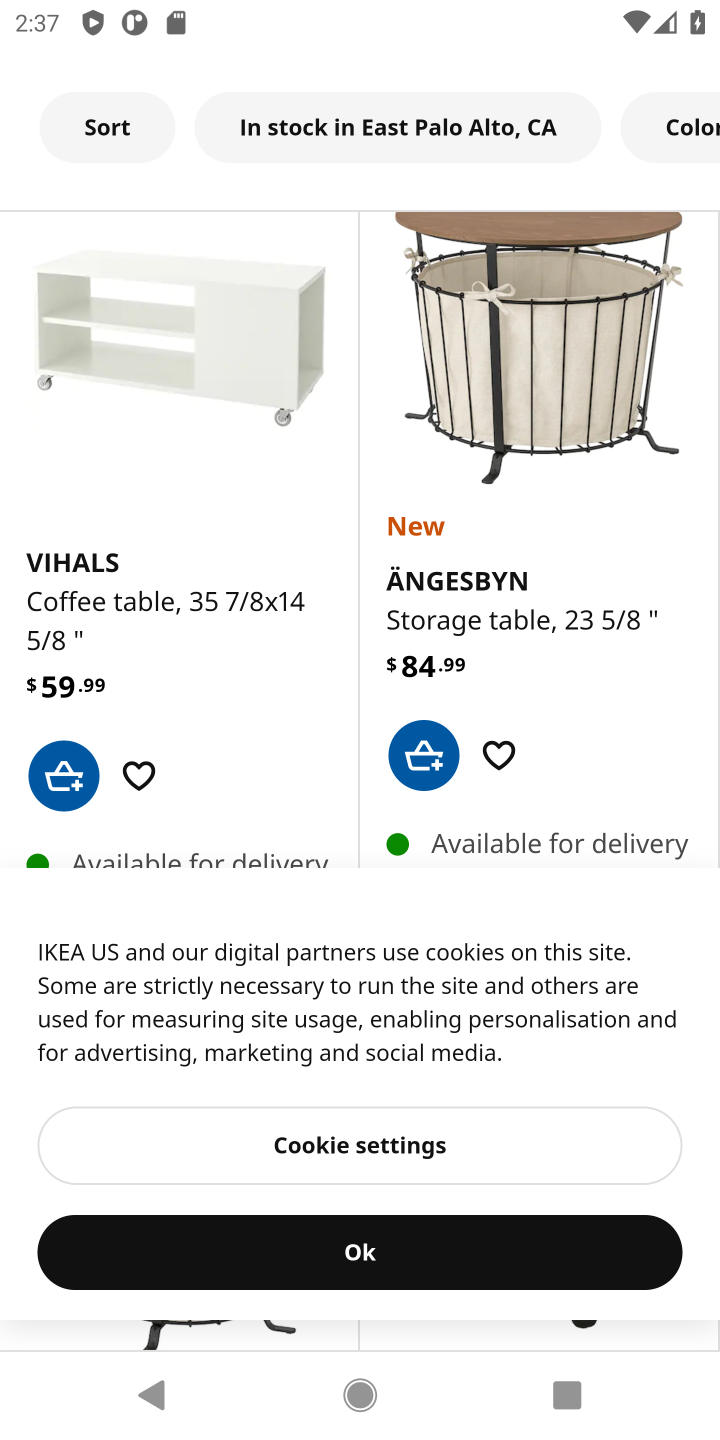
Step 32: drag from (651, 224) to (651, 60)
Your task to perform on an android device: Search for the Best selling coffee table on Ikea Image 33: 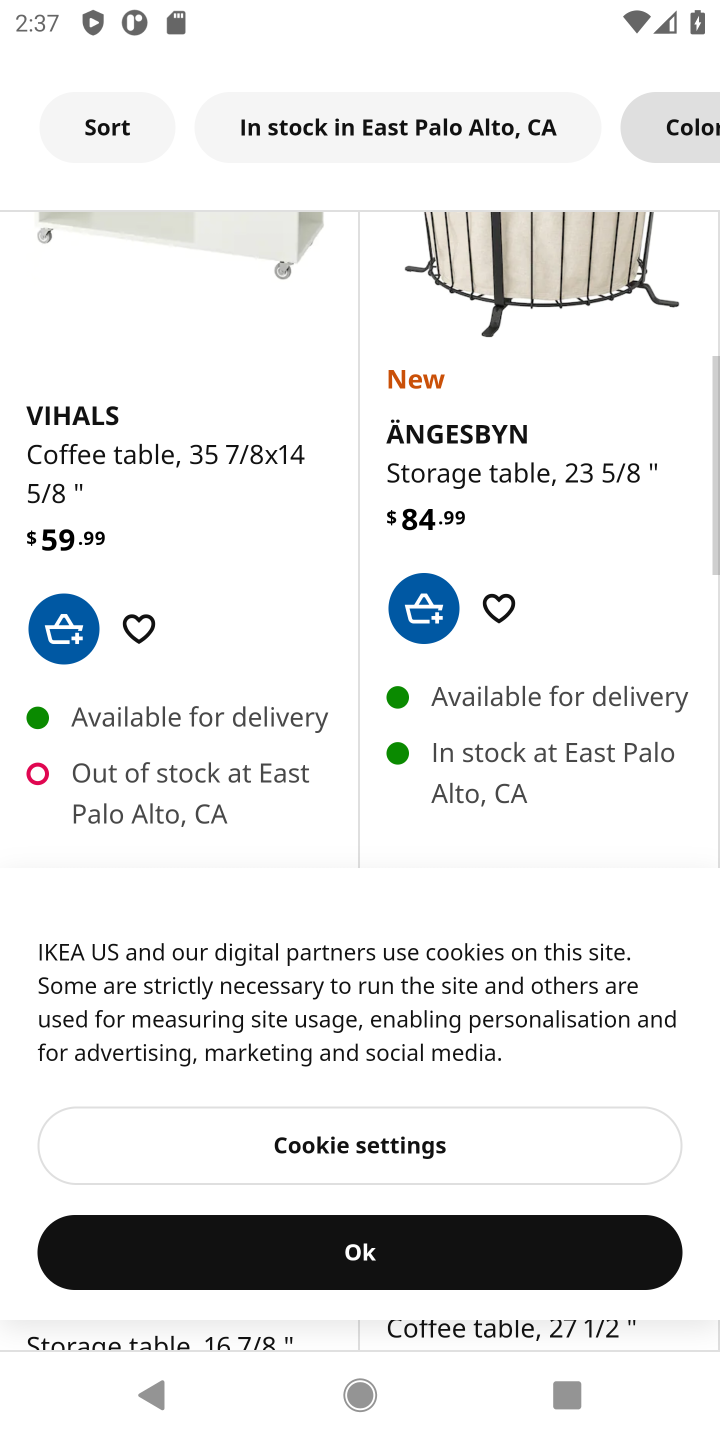
Step 33: drag from (606, 761) to (626, 283)
Your task to perform on an android device: Search for the Best selling coffee table on Ikea Image 34: 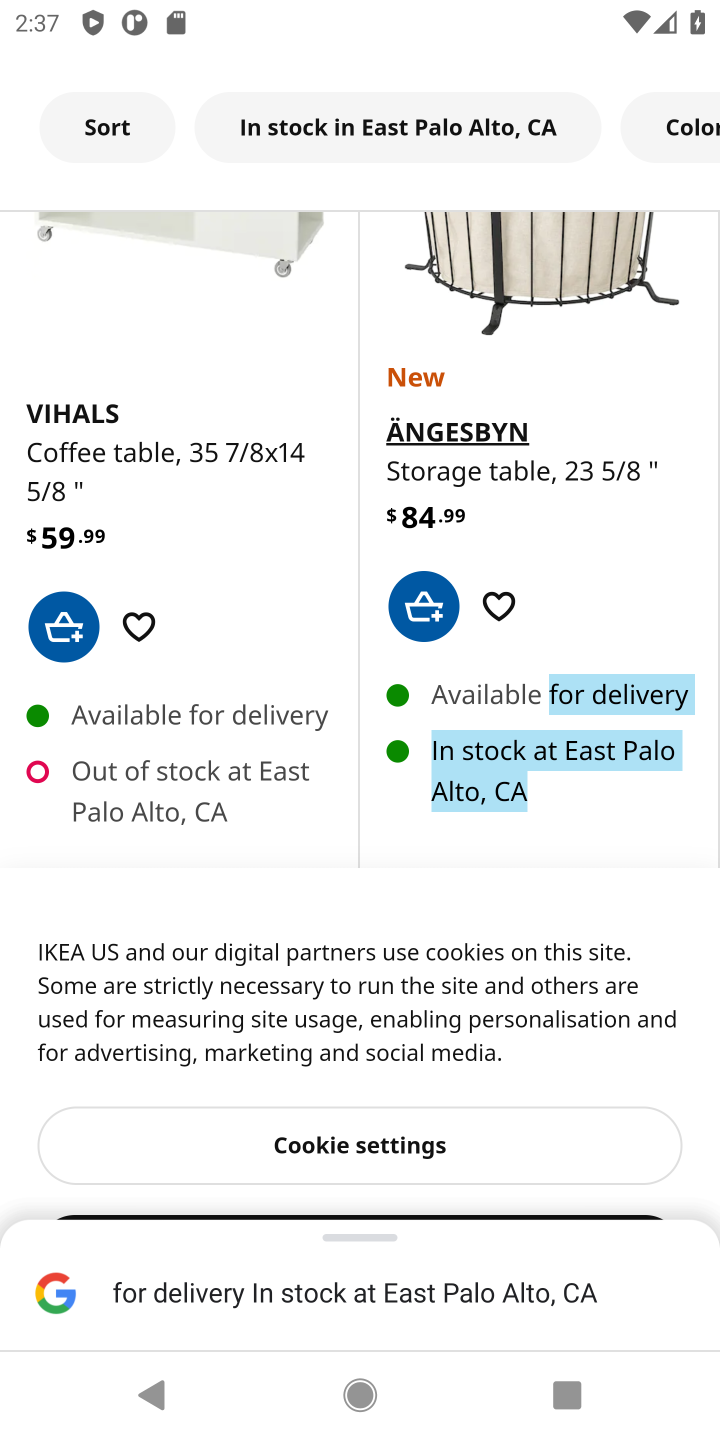
Step 34: click (674, 910)
Your task to perform on an android device: Search for the Best selling coffee table on Ikea Image 35: 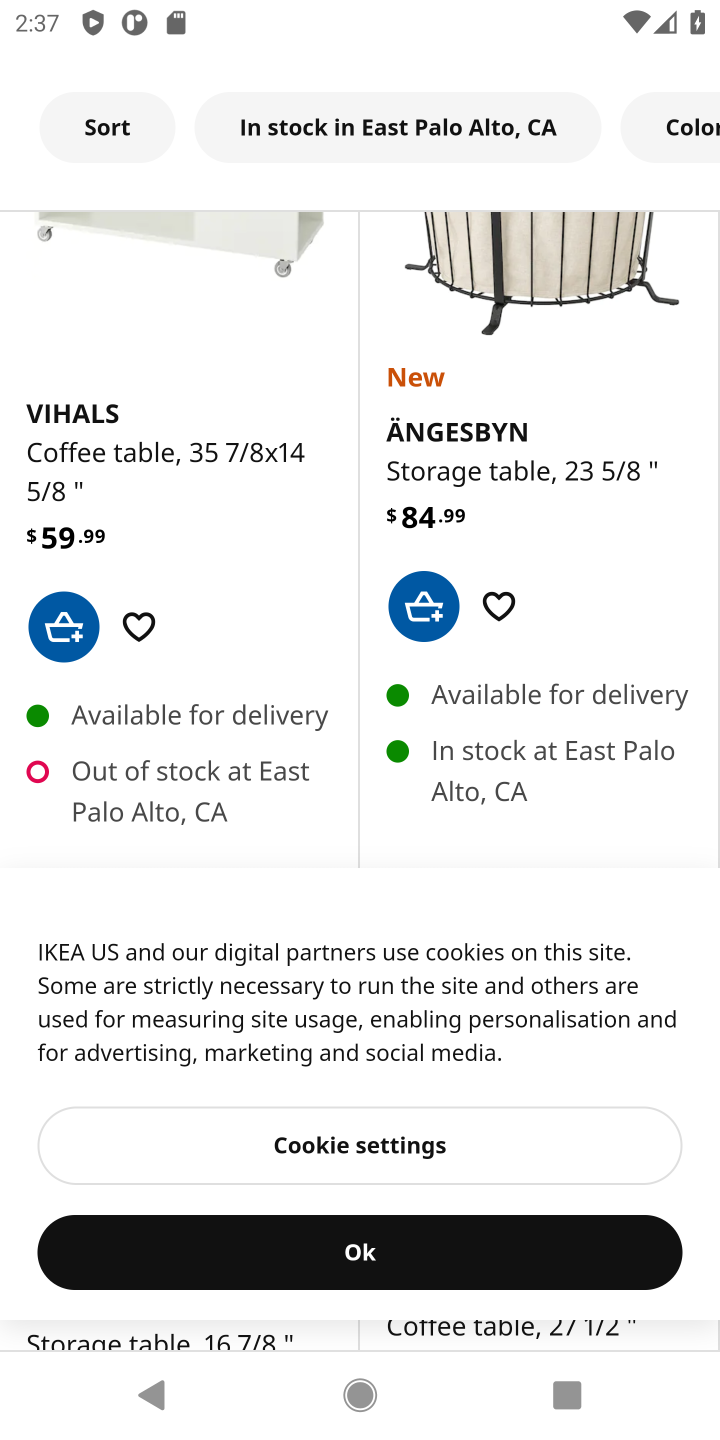
Step 35: drag from (718, 826) to (719, 615)
Your task to perform on an android device: Search for the Best selling coffee table on Ikea Image 36: 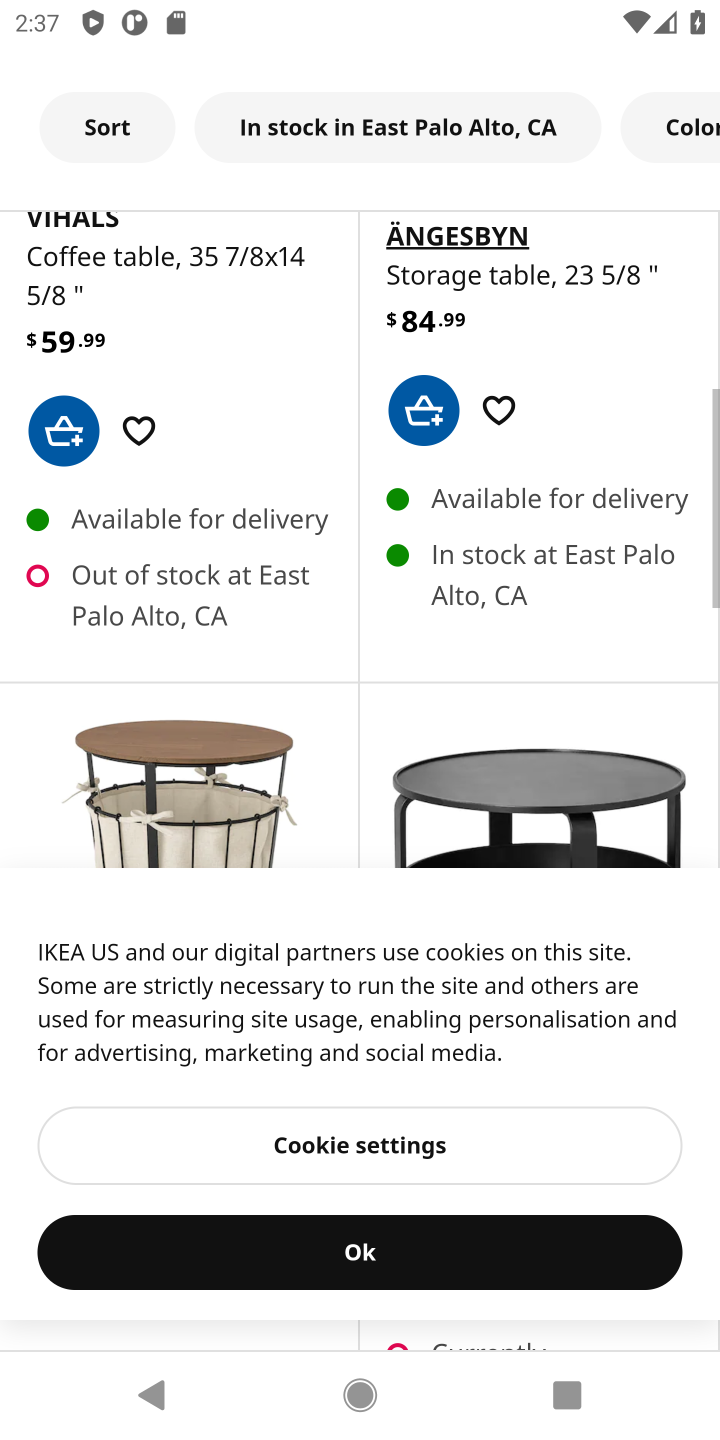
Step 36: drag from (599, 515) to (690, 1103)
Your task to perform on an android device: Search for the Best selling coffee table on Ikea Image 37: 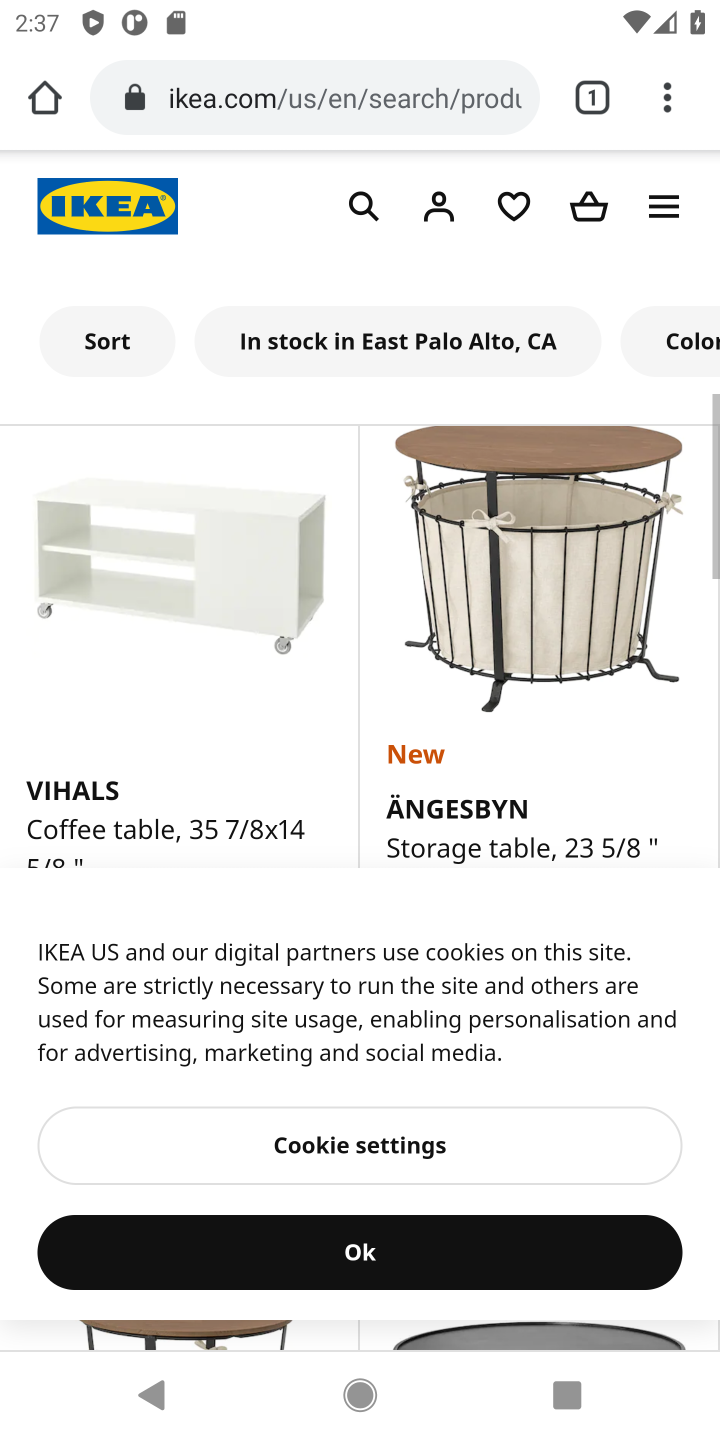
Step 37: click (547, 781)
Your task to perform on an android device: Search for the Best selling coffee table on Ikea Image 38: 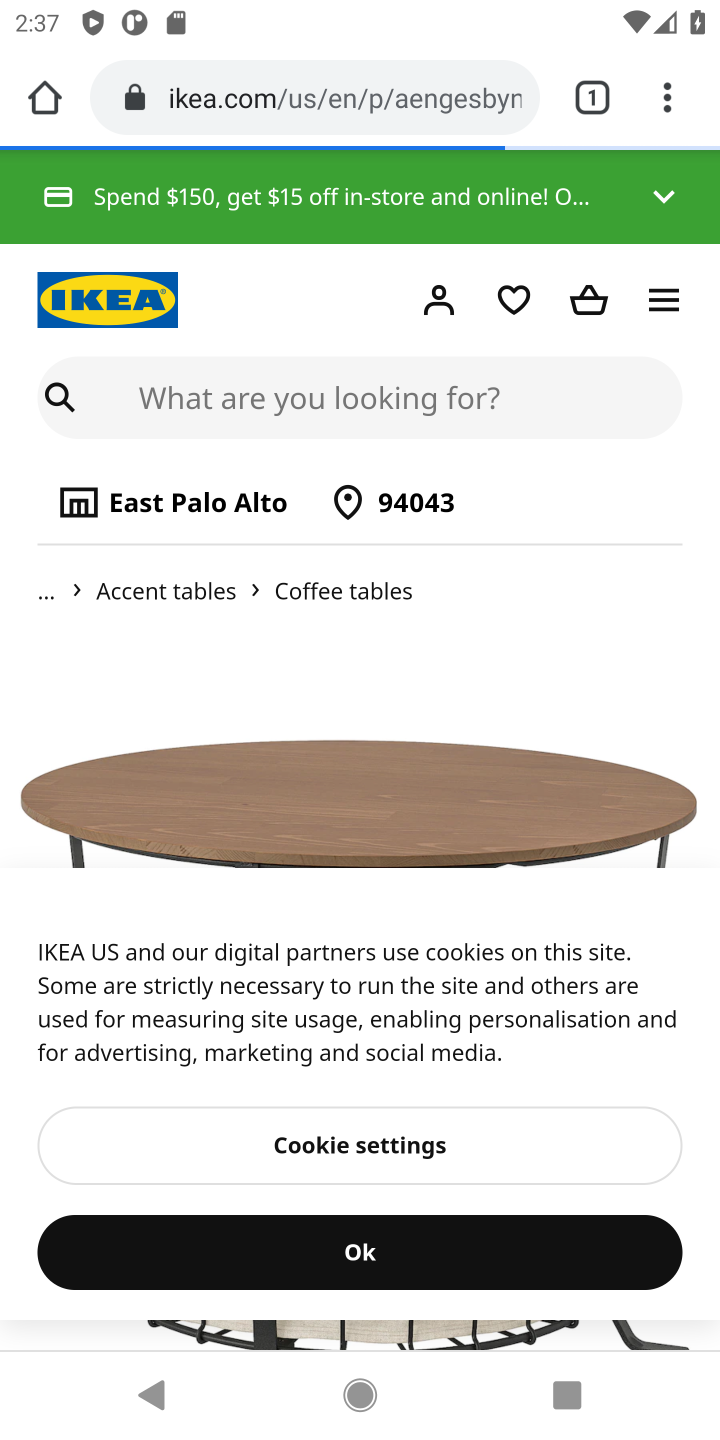
Step 38: click (275, 386)
Your task to perform on an android device: Search for the Best selling coffee table on Ikea Image 39: 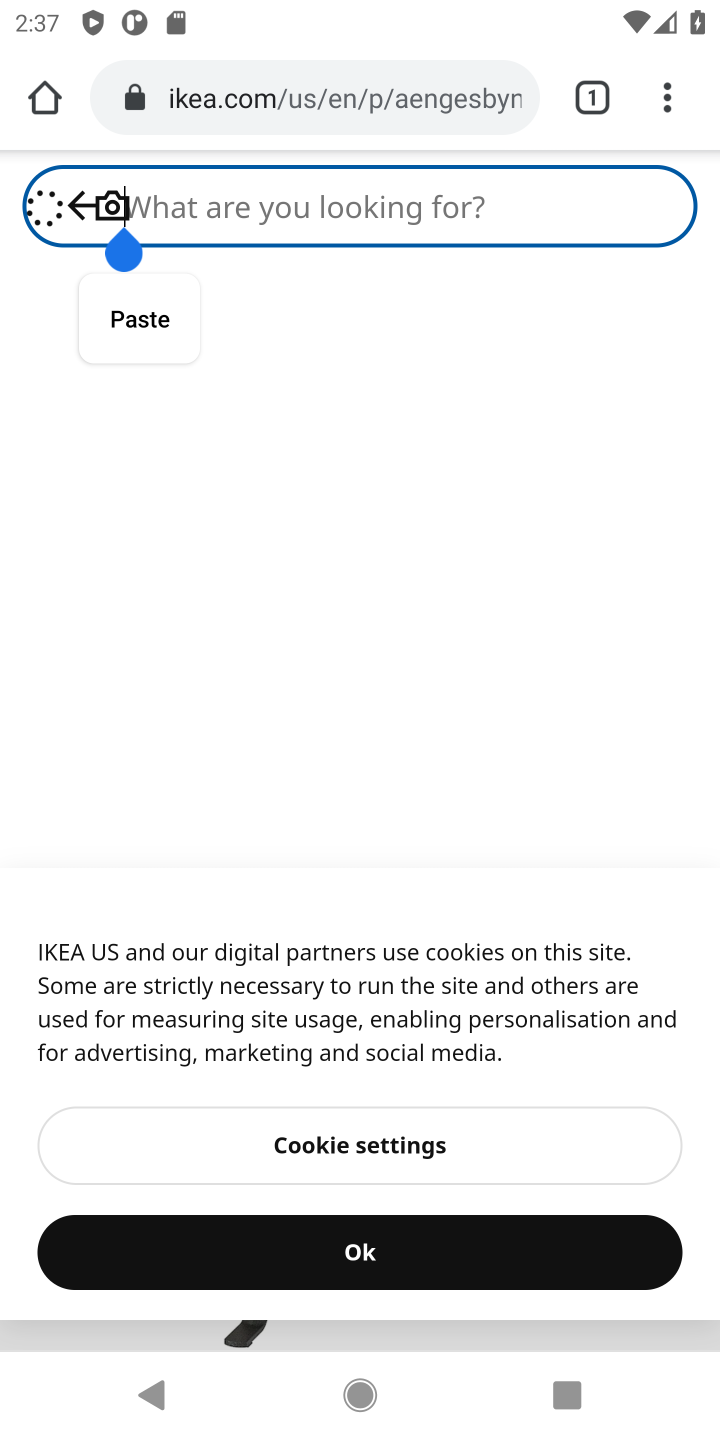
Step 39: task complete